Your task to perform on an android device: Search for a new lipgloss Image 0: 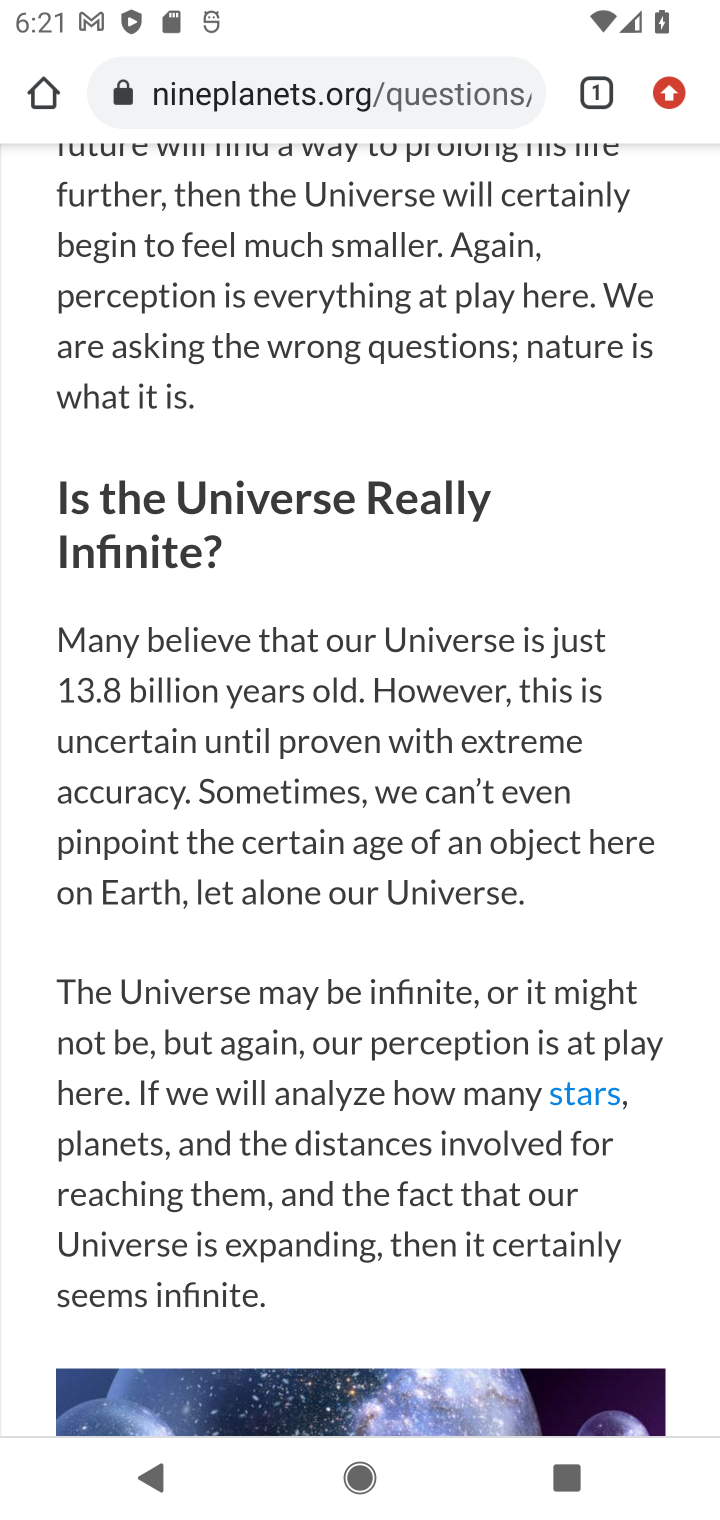
Step 0: click (392, 87)
Your task to perform on an android device: Search for a new lipgloss Image 1: 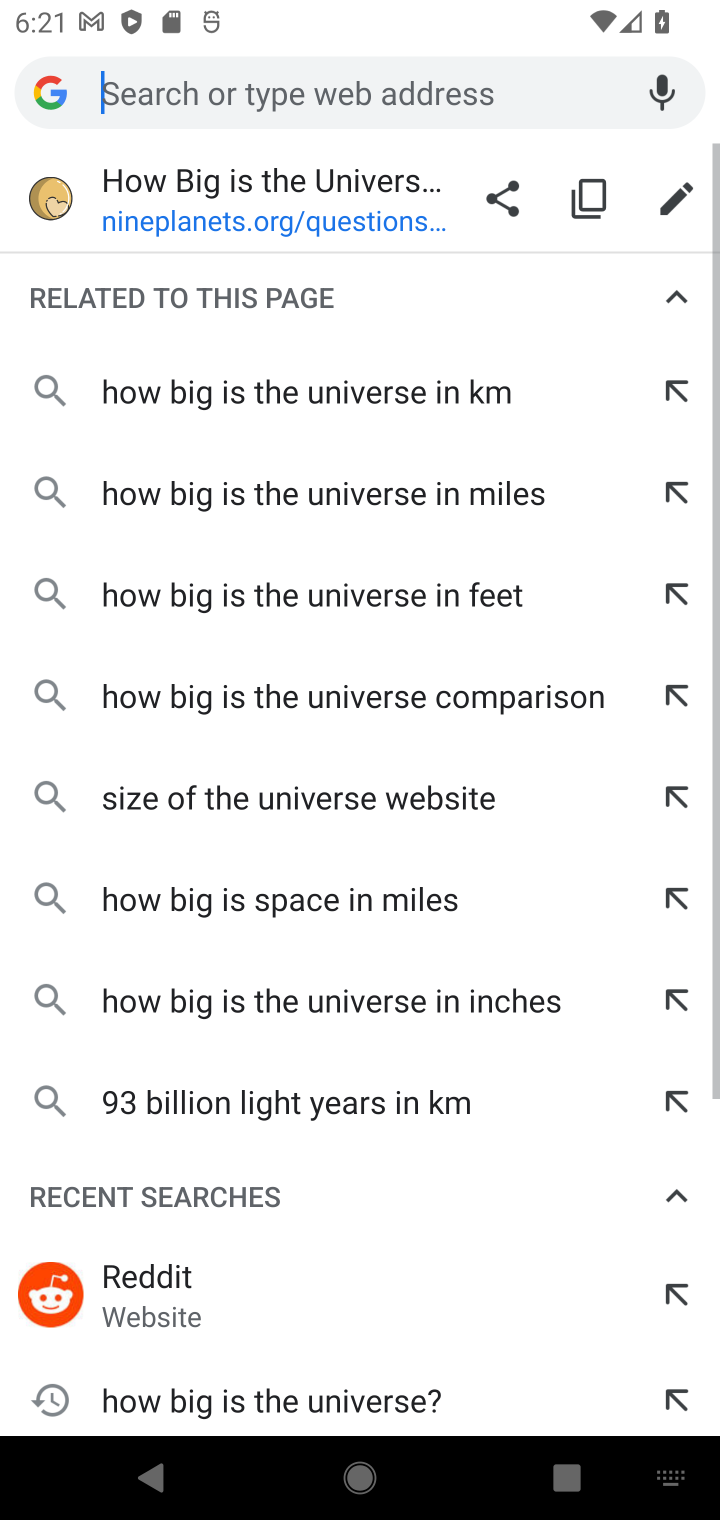
Step 1: type "a new lipgloss"
Your task to perform on an android device: Search for a new lipgloss Image 2: 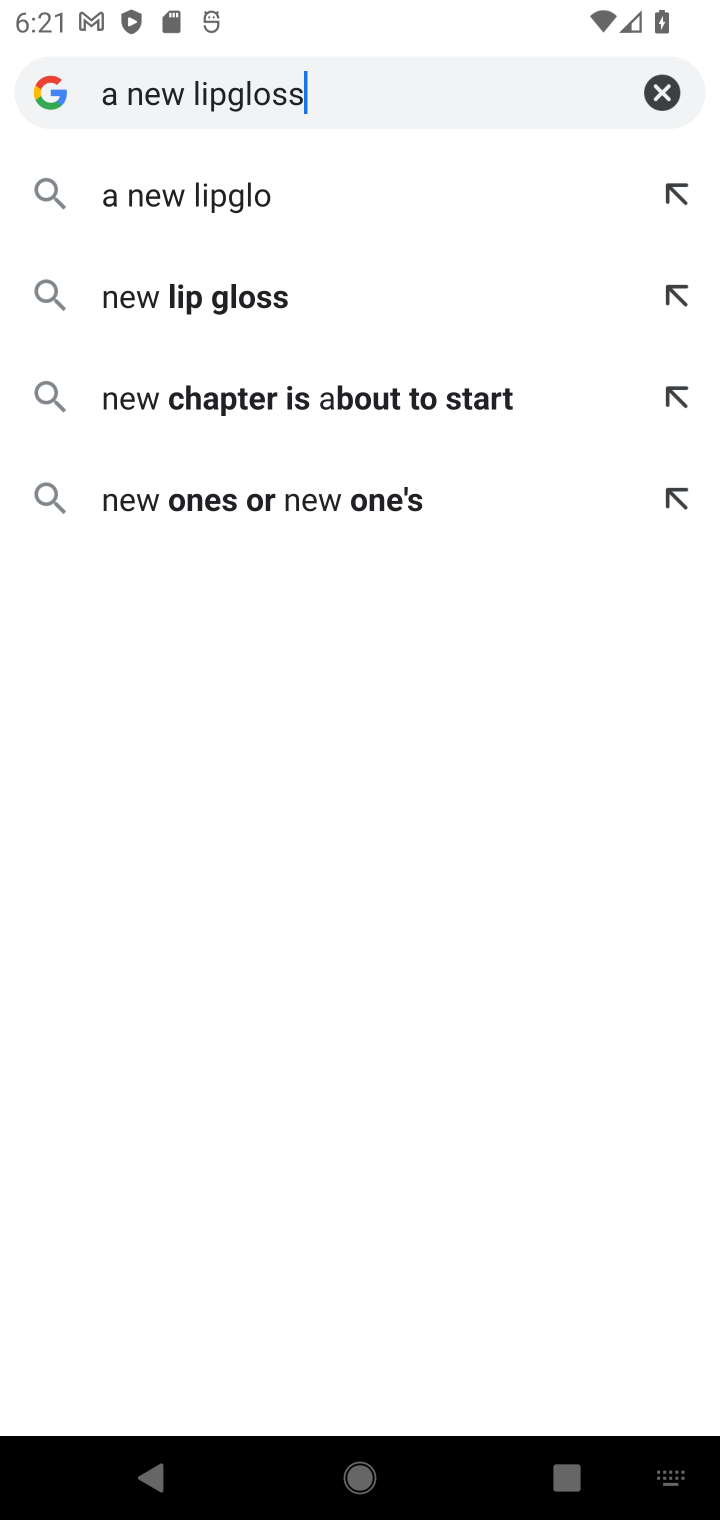
Step 2: type ""
Your task to perform on an android device: Search for a new lipgloss Image 3: 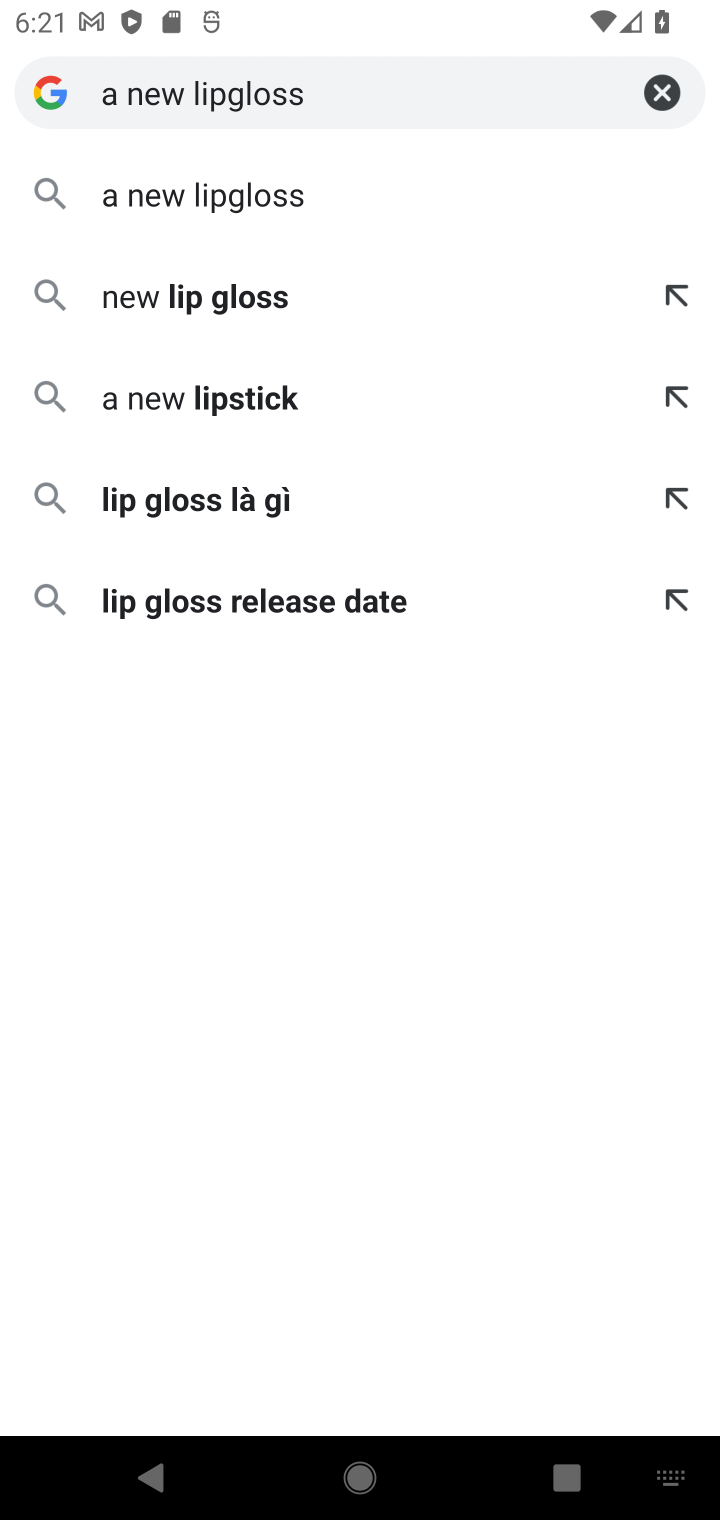
Step 3: click (147, 200)
Your task to perform on an android device: Search for a new lipgloss Image 4: 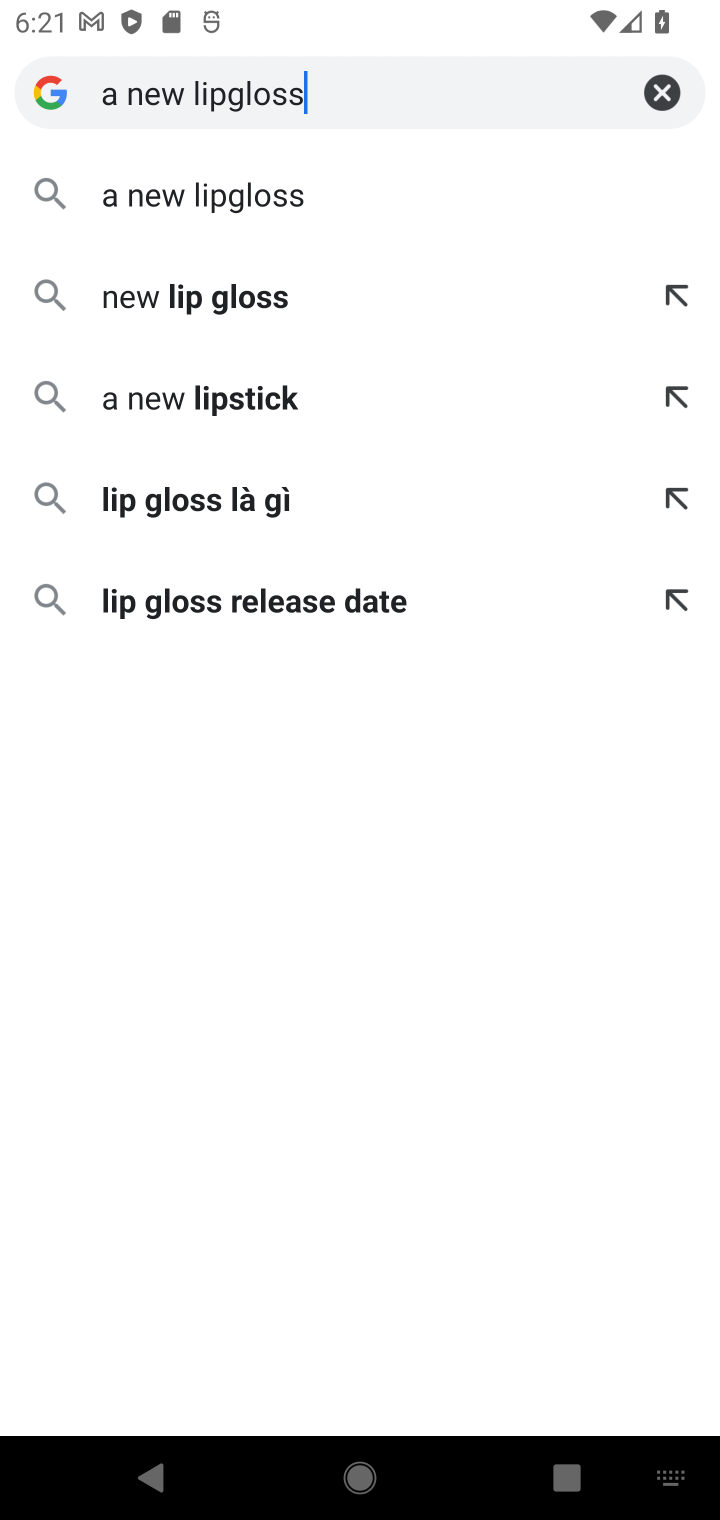
Step 4: press enter
Your task to perform on an android device: Search for a new lipgloss Image 5: 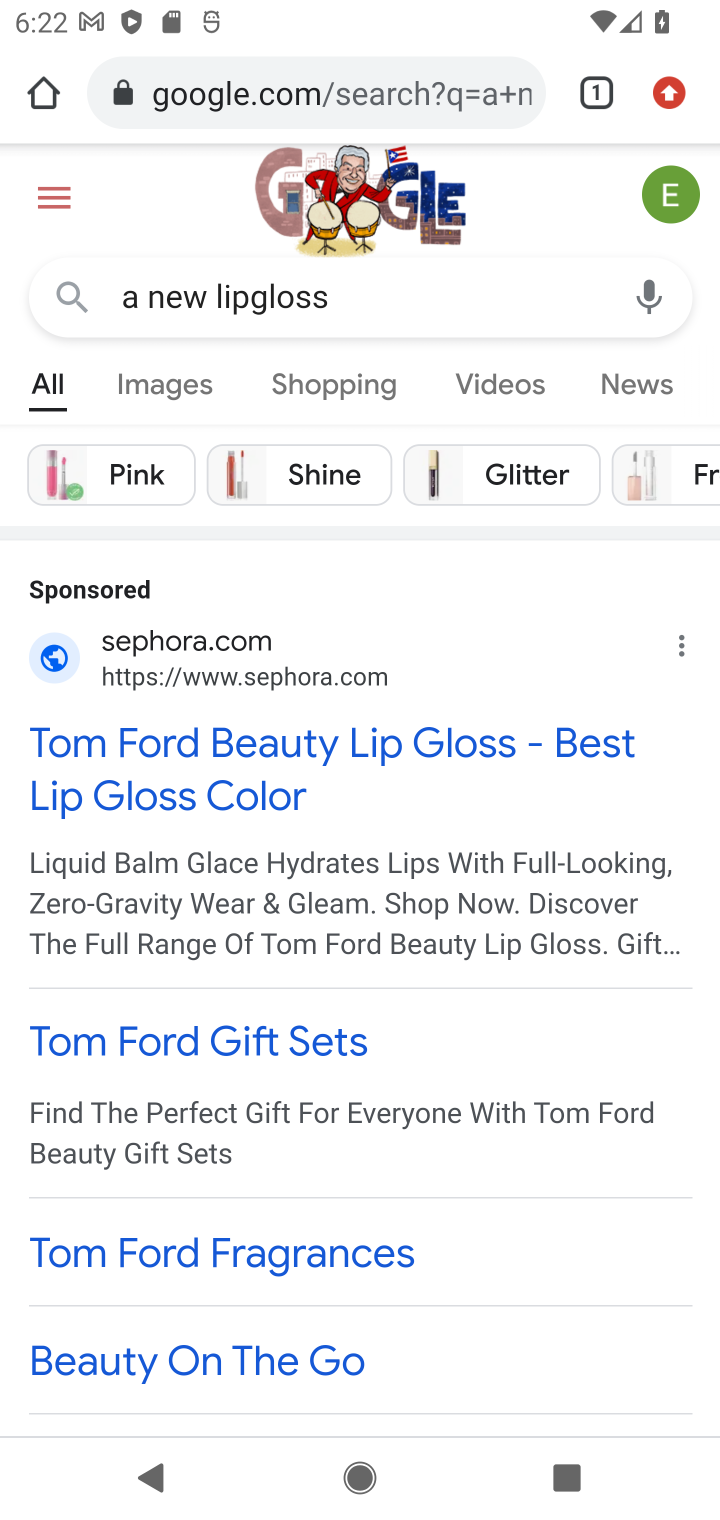
Step 5: click (452, 777)
Your task to perform on an android device: Search for a new lipgloss Image 6: 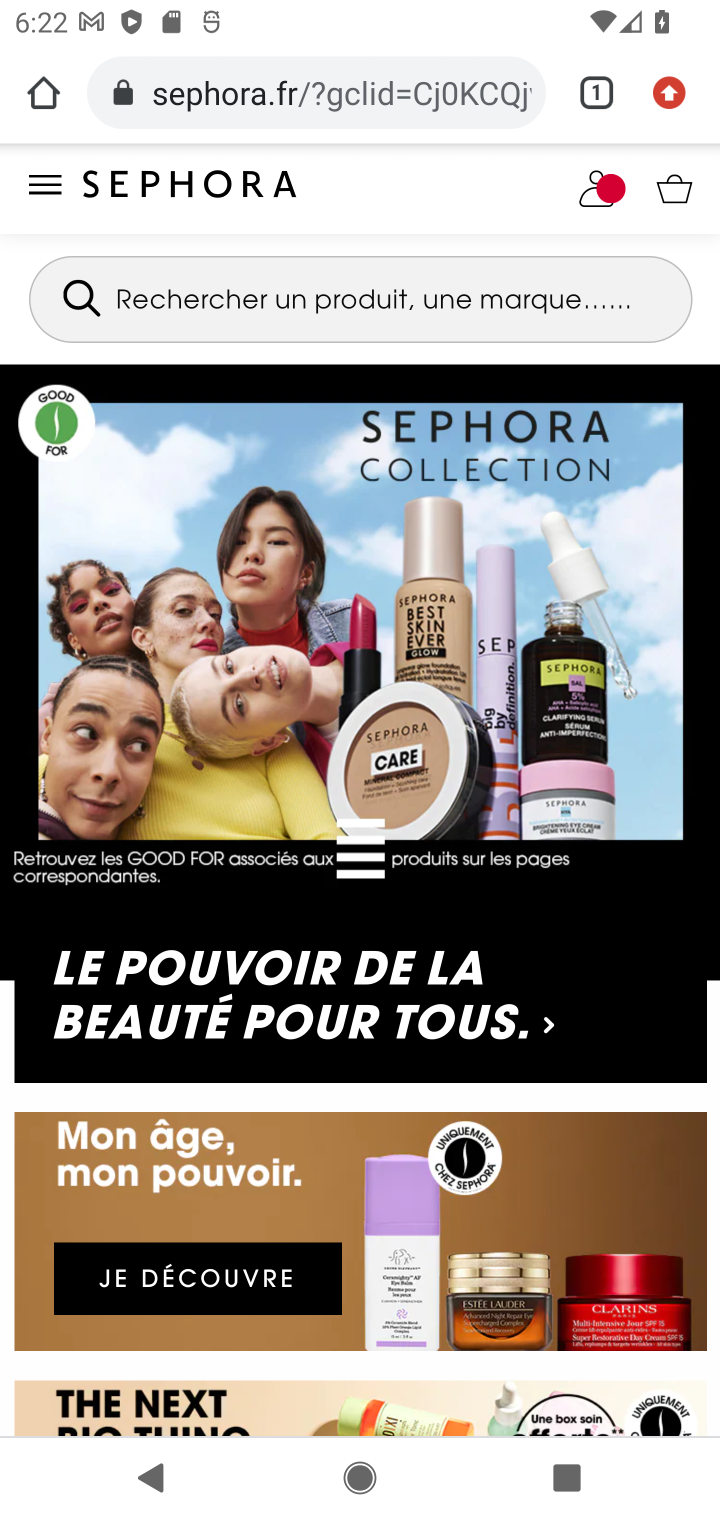
Step 6: drag from (528, 967) to (472, 276)
Your task to perform on an android device: Search for a new lipgloss Image 7: 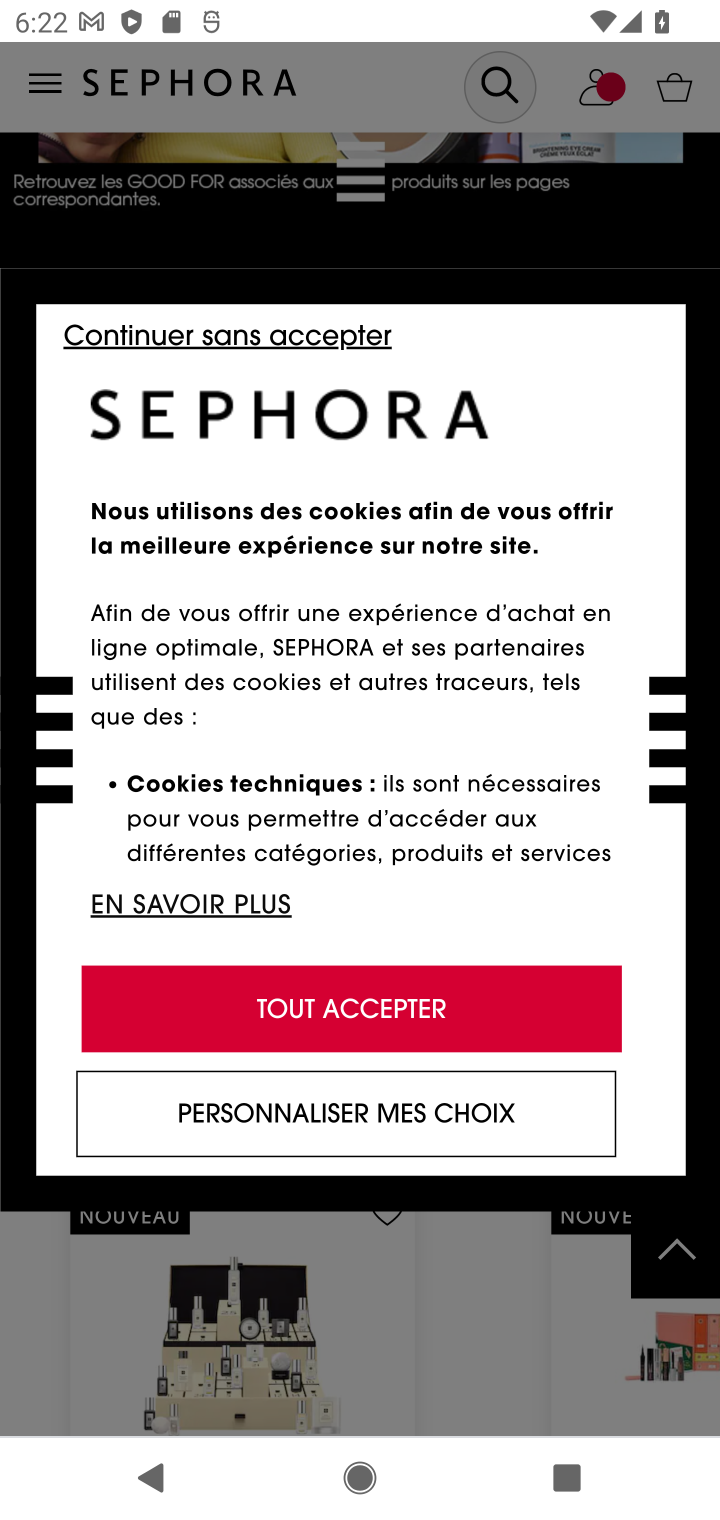
Step 7: click (379, 995)
Your task to perform on an android device: Search for a new lipgloss Image 8: 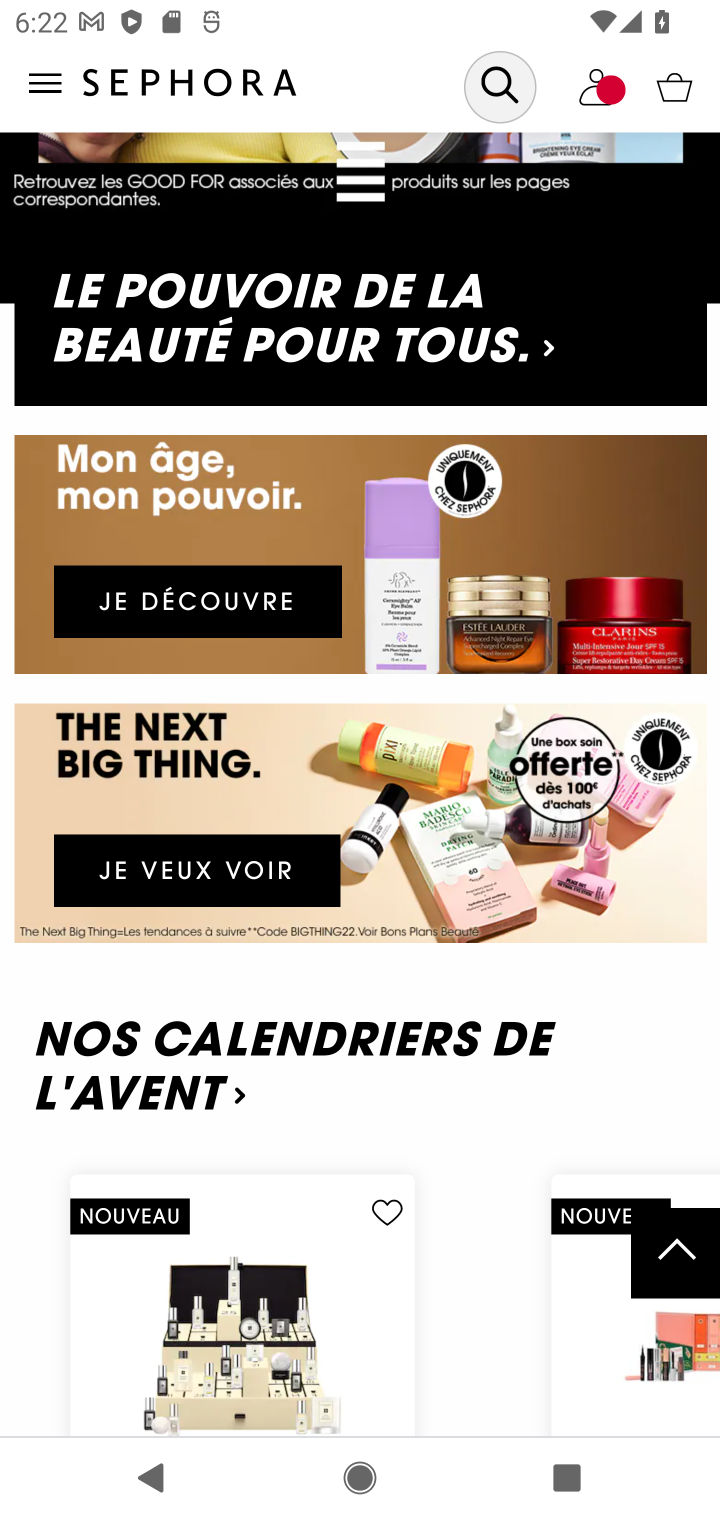
Step 8: drag from (449, 1150) to (421, 268)
Your task to perform on an android device: Search for a new lipgloss Image 9: 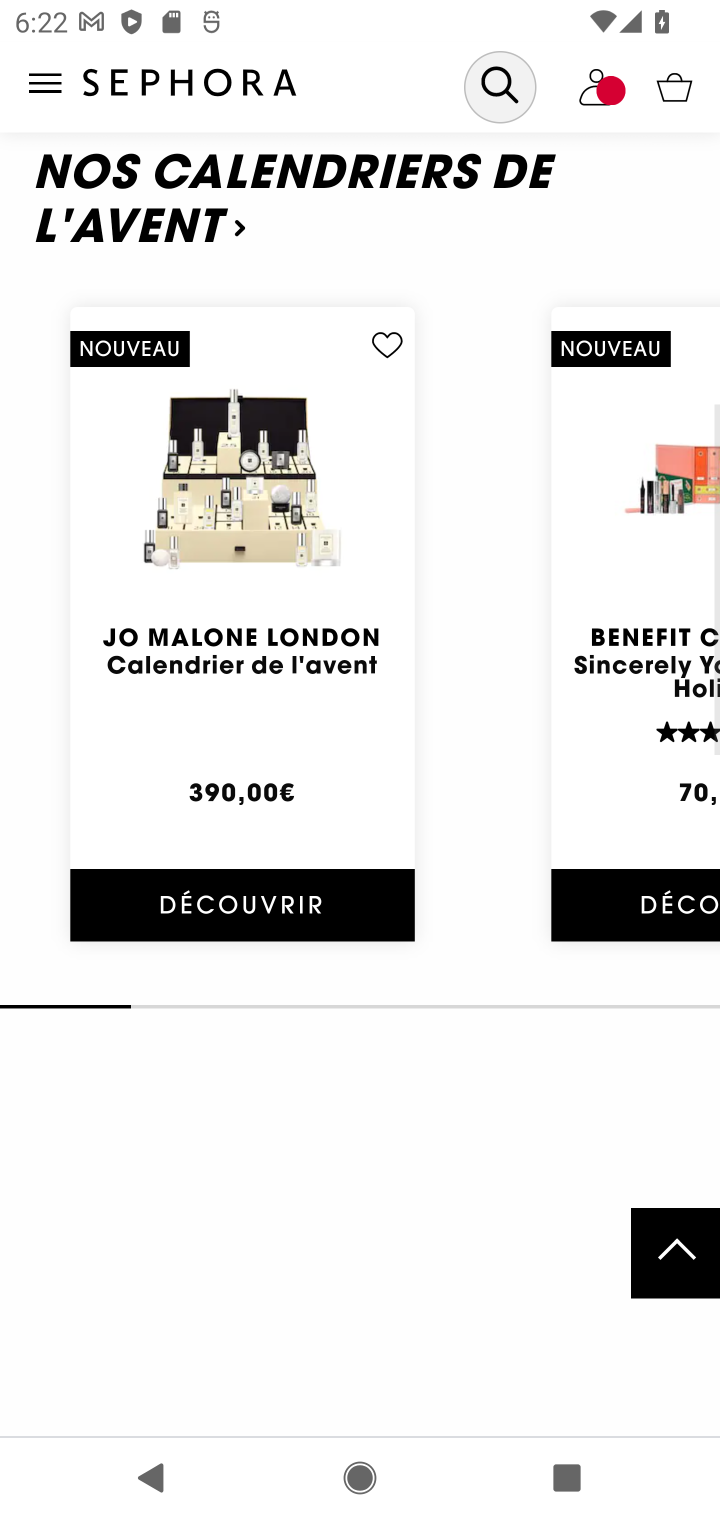
Step 9: drag from (343, 1135) to (213, 194)
Your task to perform on an android device: Search for a new lipgloss Image 10: 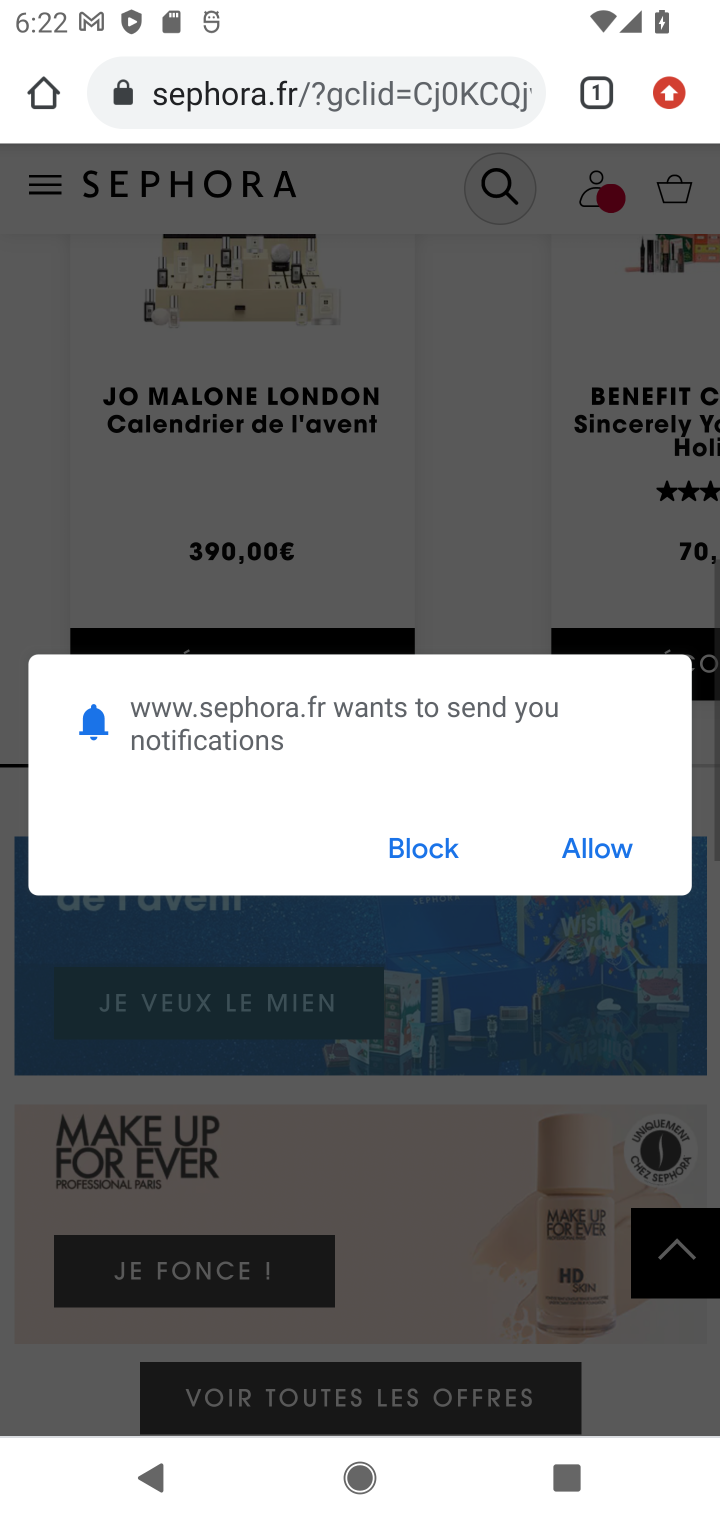
Step 10: click (391, 849)
Your task to perform on an android device: Search for a new lipgloss Image 11: 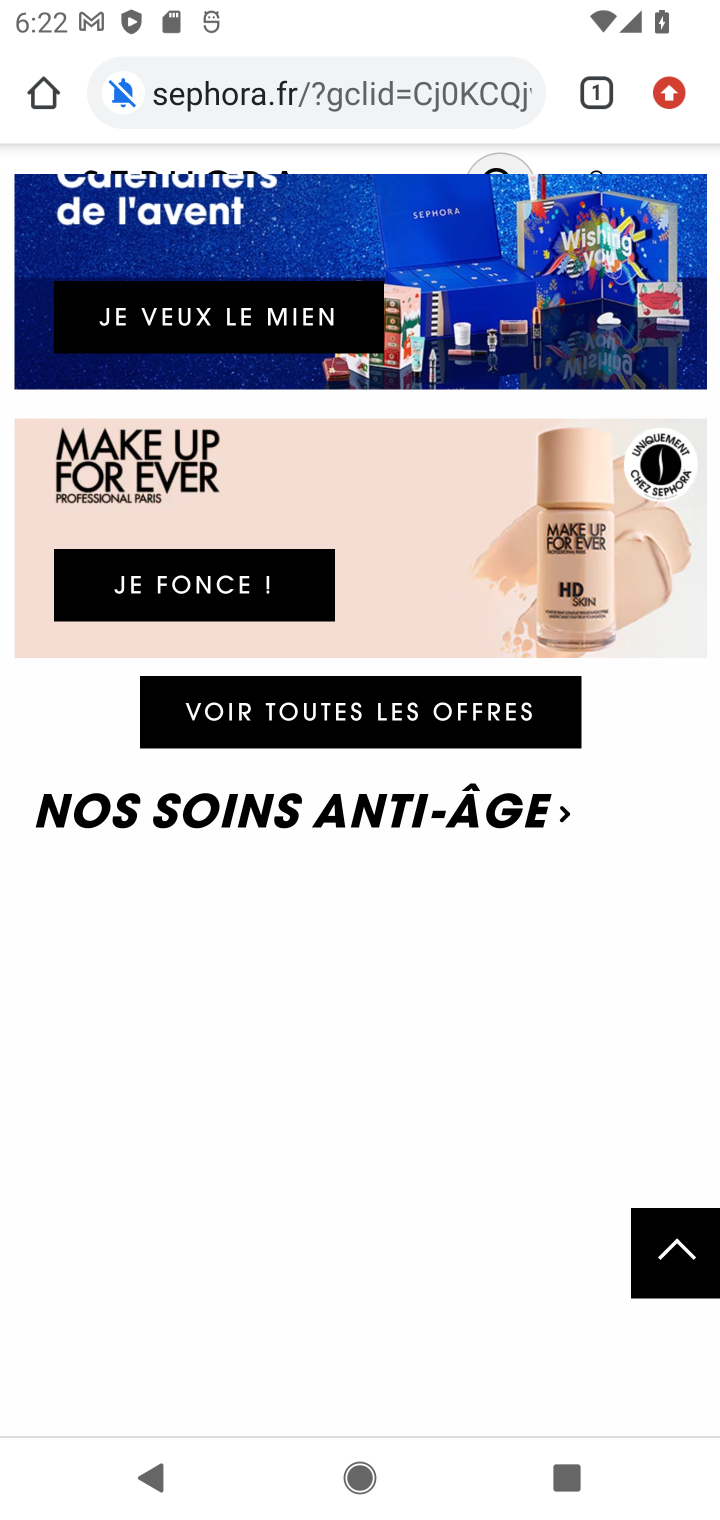
Step 11: drag from (534, 1129) to (545, 214)
Your task to perform on an android device: Search for a new lipgloss Image 12: 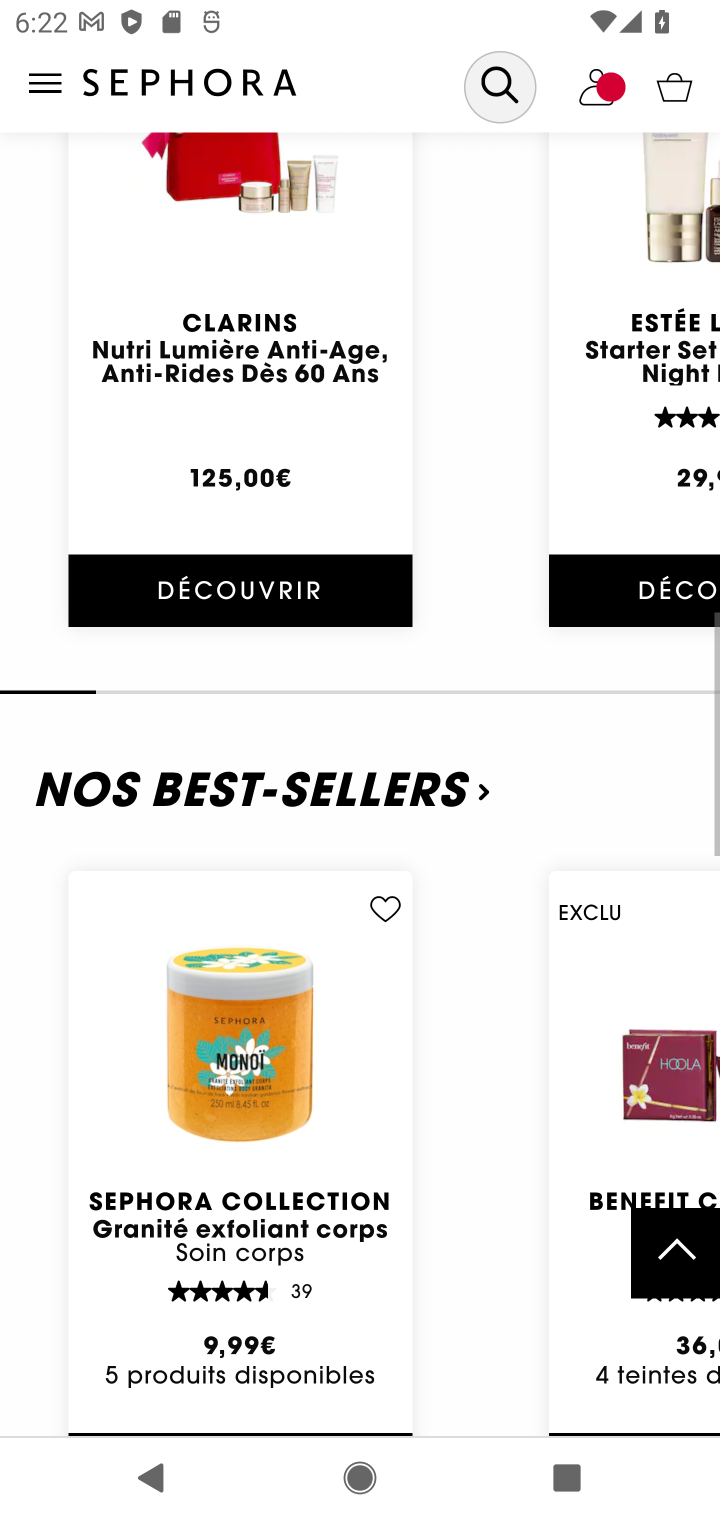
Step 12: drag from (514, 1106) to (555, 179)
Your task to perform on an android device: Search for a new lipgloss Image 13: 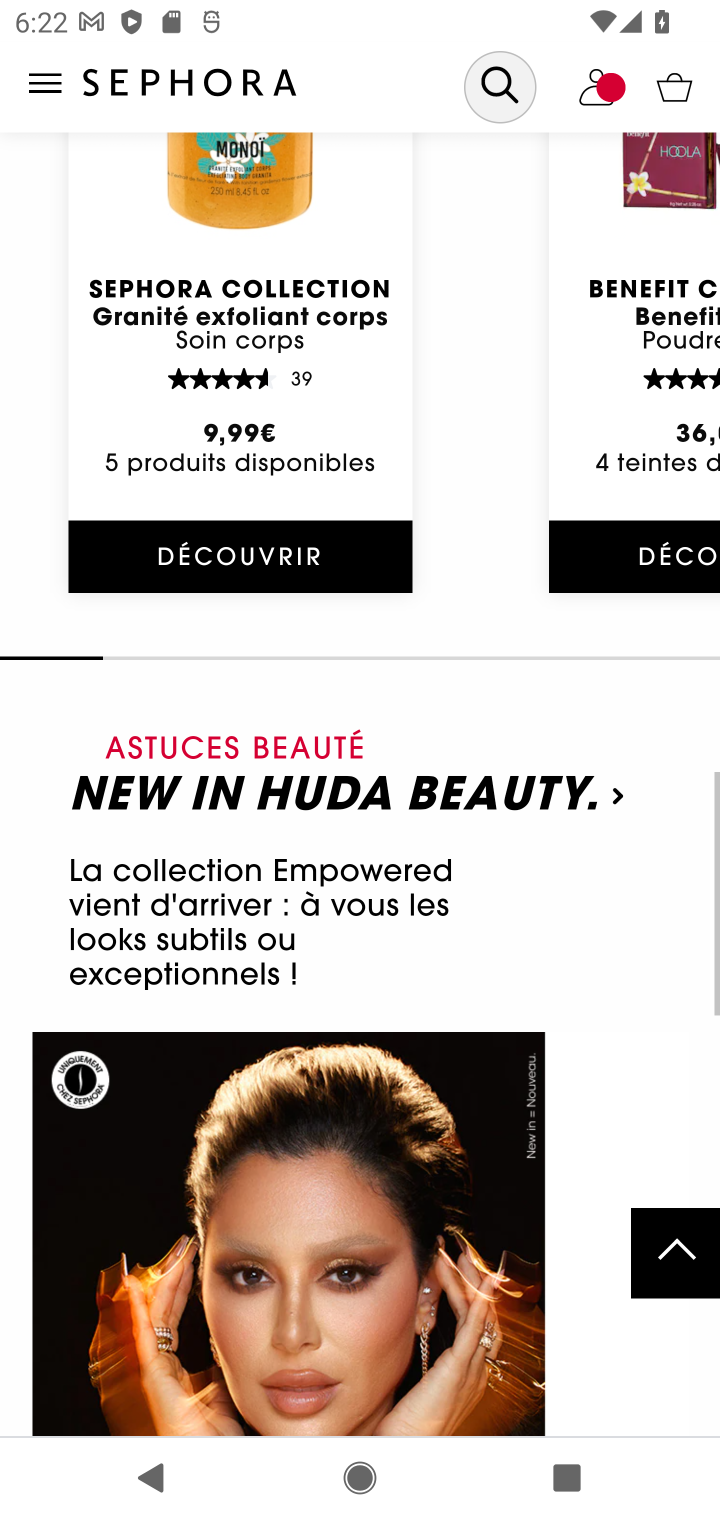
Step 13: drag from (588, 987) to (562, 132)
Your task to perform on an android device: Search for a new lipgloss Image 14: 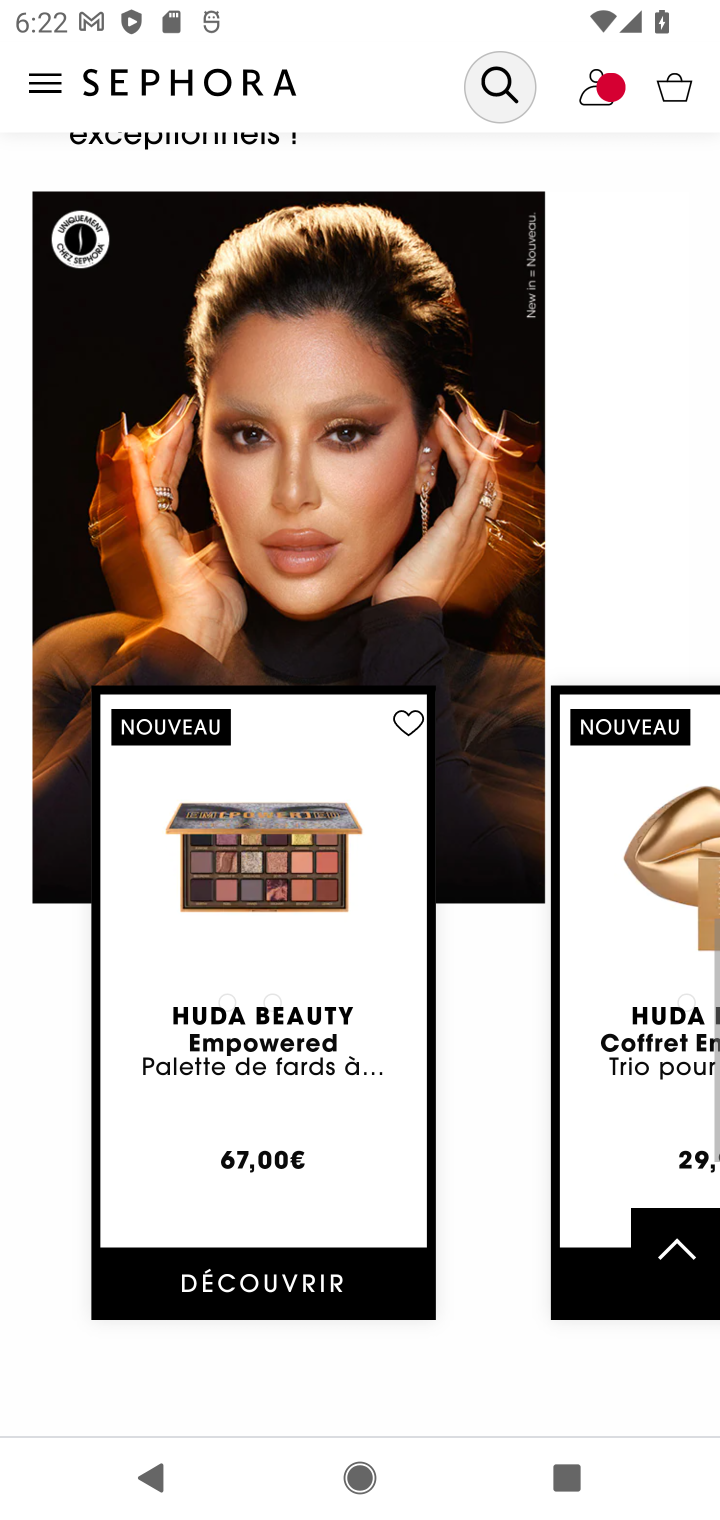
Step 14: drag from (496, 1226) to (518, 191)
Your task to perform on an android device: Search for a new lipgloss Image 15: 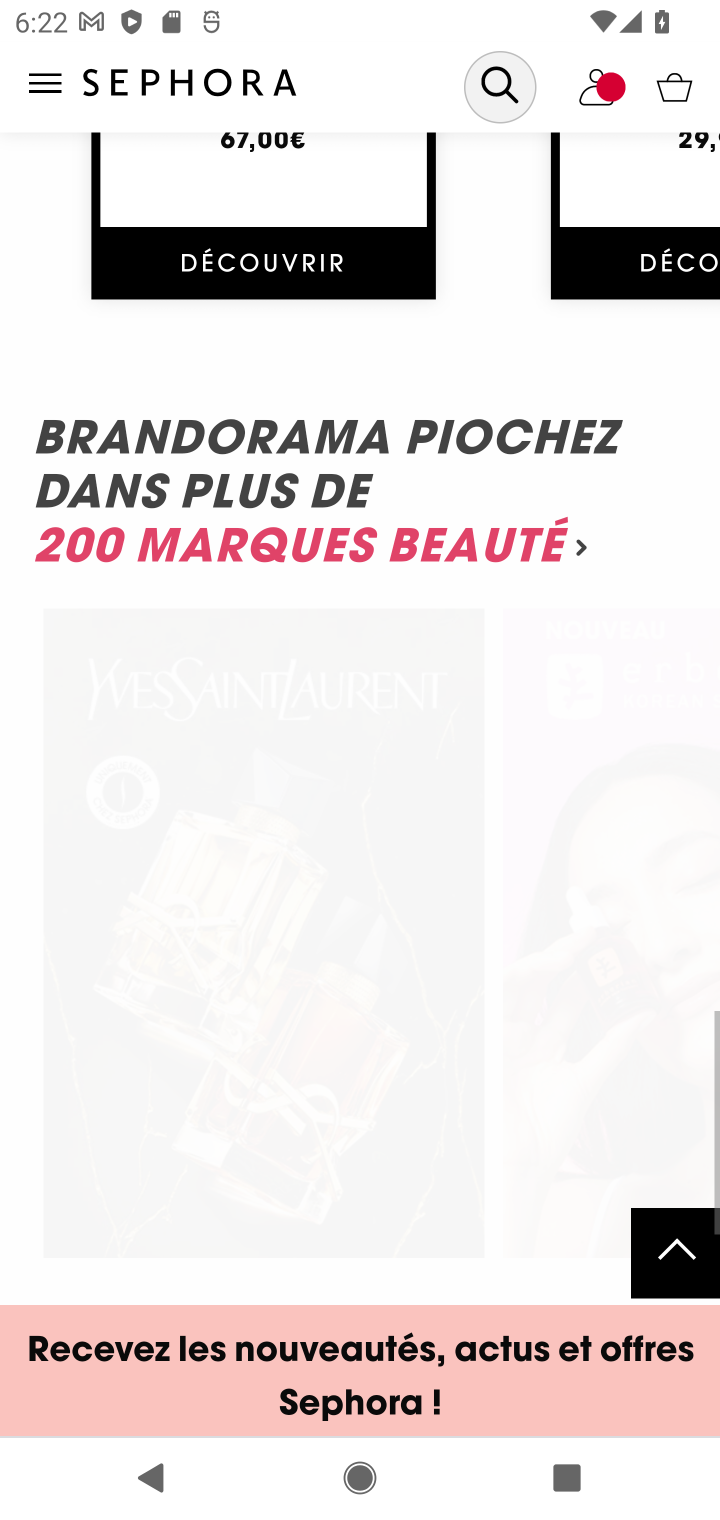
Step 15: drag from (366, 809) to (351, 588)
Your task to perform on an android device: Search for a new lipgloss Image 16: 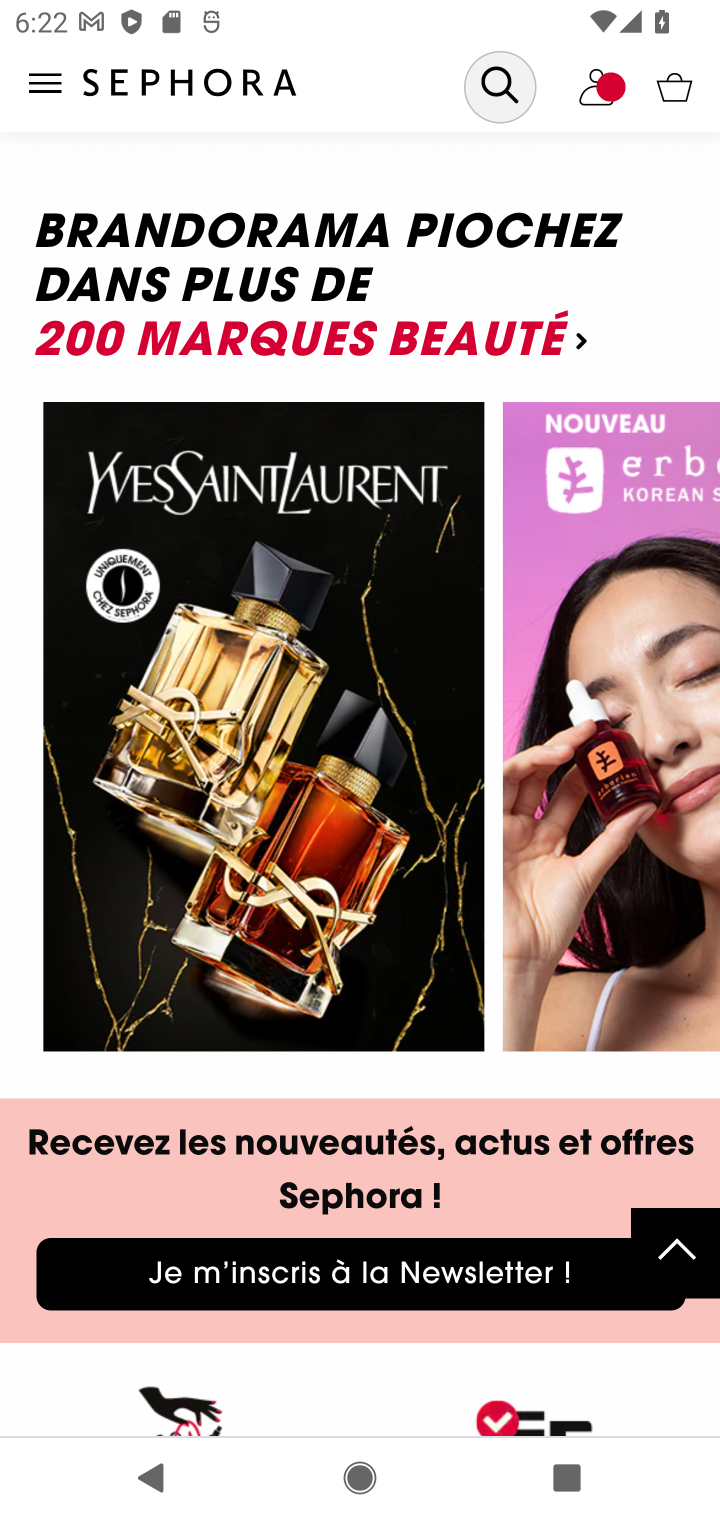
Step 16: drag from (236, 401) to (364, 268)
Your task to perform on an android device: Search for a new lipgloss Image 17: 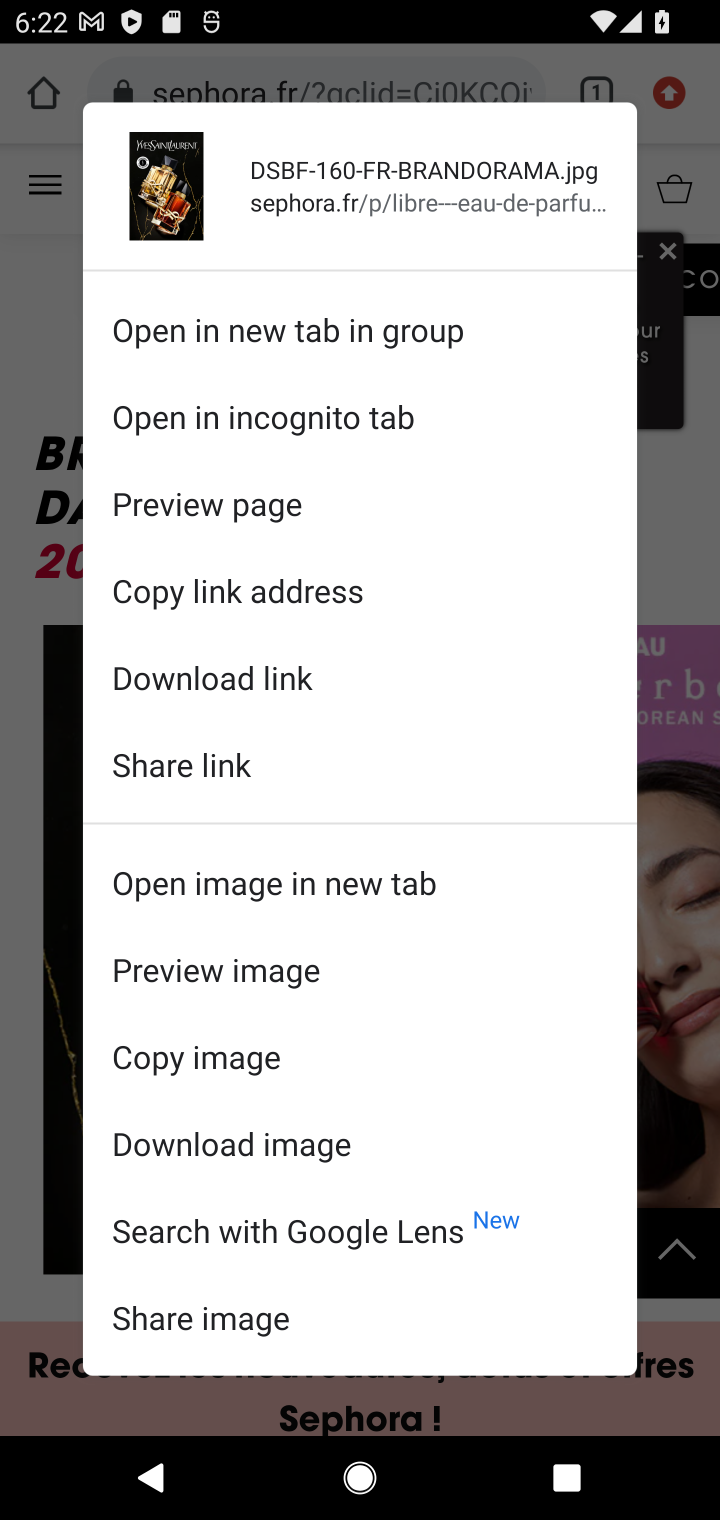
Step 17: drag from (431, 516) to (462, 306)
Your task to perform on an android device: Search for a new lipgloss Image 18: 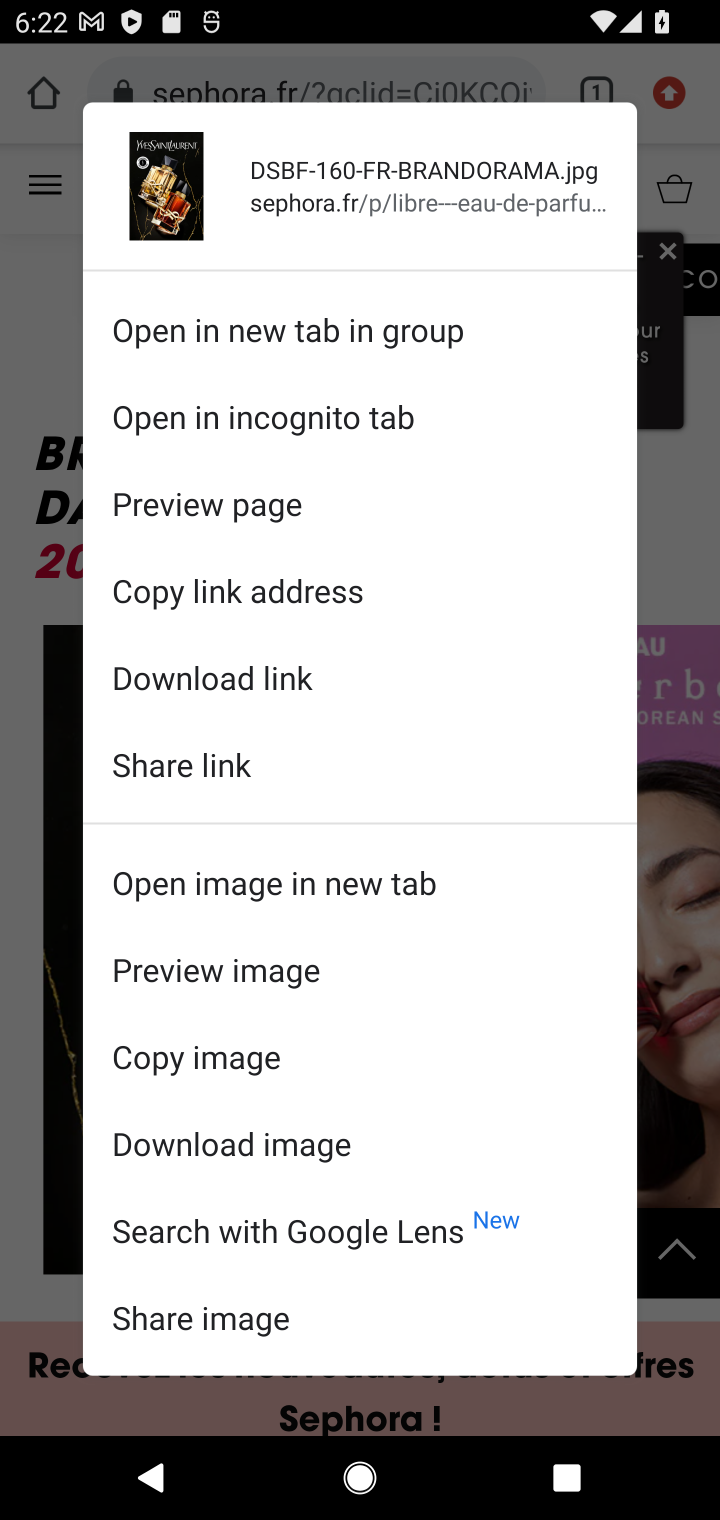
Step 18: drag from (423, 619) to (420, 346)
Your task to perform on an android device: Search for a new lipgloss Image 19: 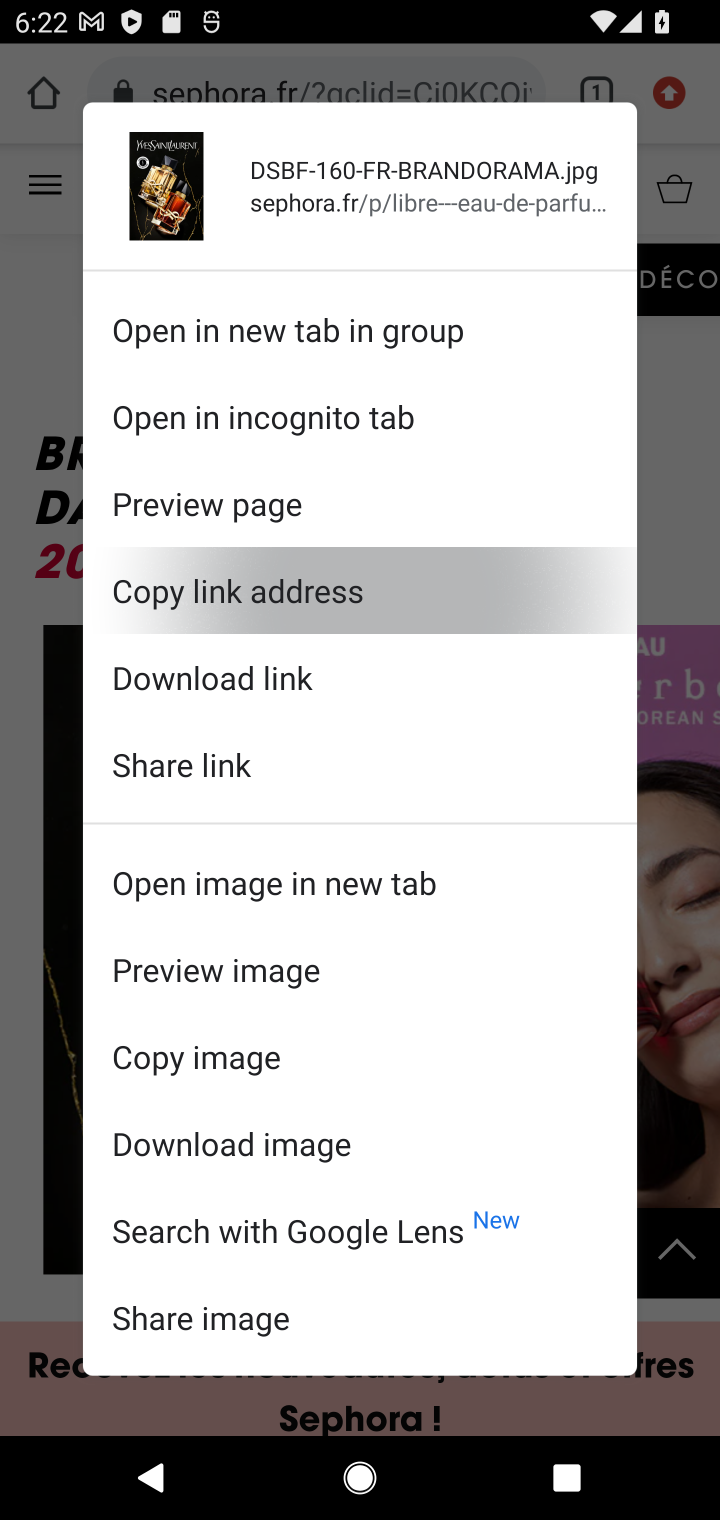
Step 19: drag from (364, 640) to (368, 332)
Your task to perform on an android device: Search for a new lipgloss Image 20: 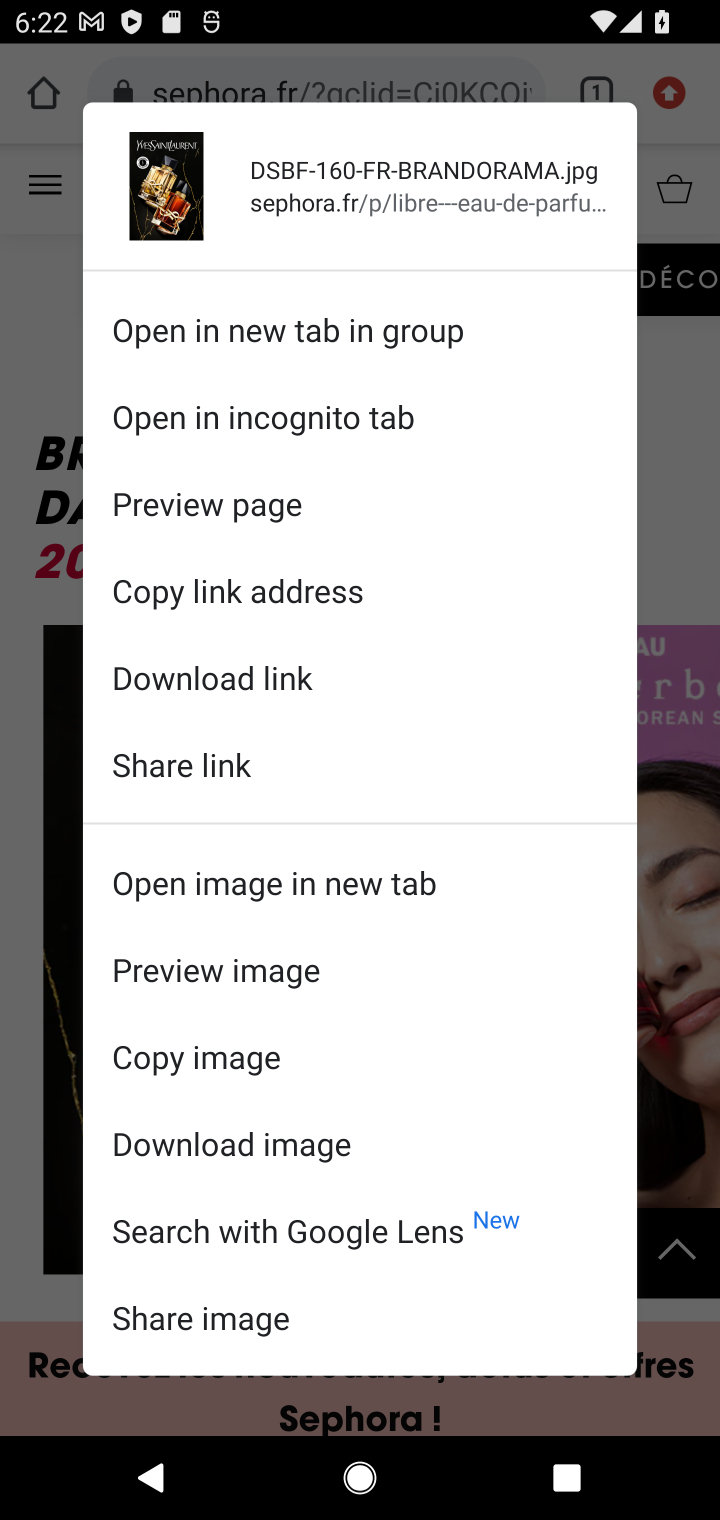
Step 20: click (657, 486)
Your task to perform on an android device: Search for a new lipgloss Image 21: 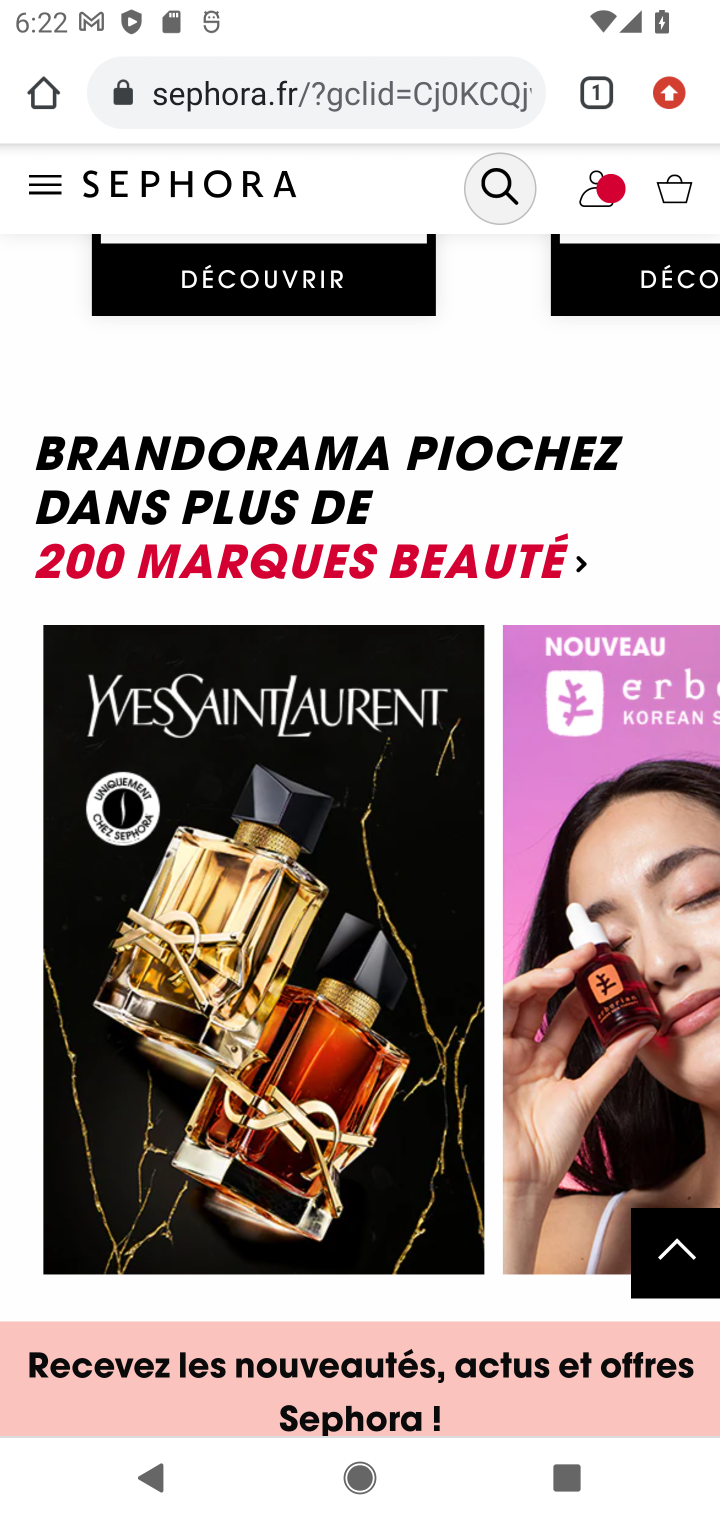
Step 21: press back button
Your task to perform on an android device: Search for a new lipgloss Image 22: 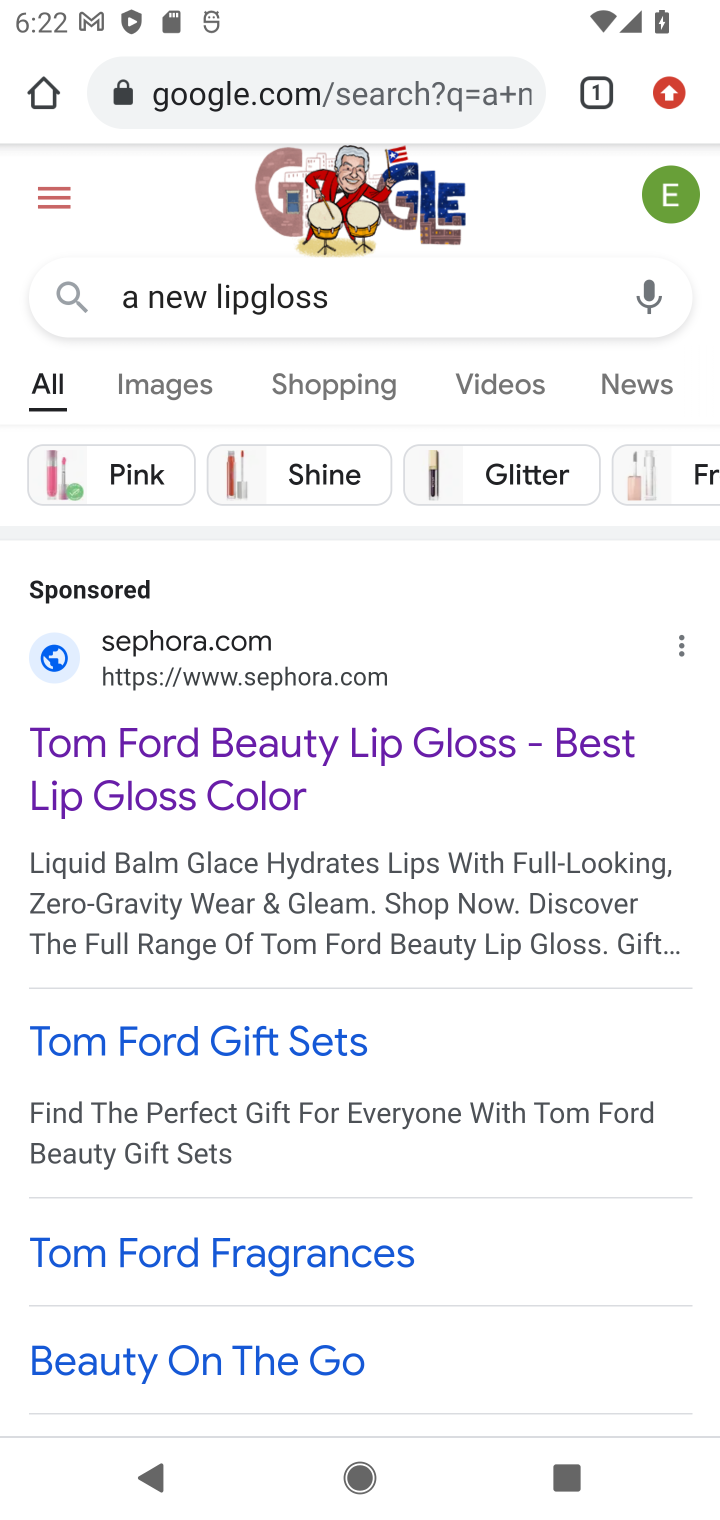
Step 22: drag from (513, 1269) to (541, 509)
Your task to perform on an android device: Search for a new lipgloss Image 23: 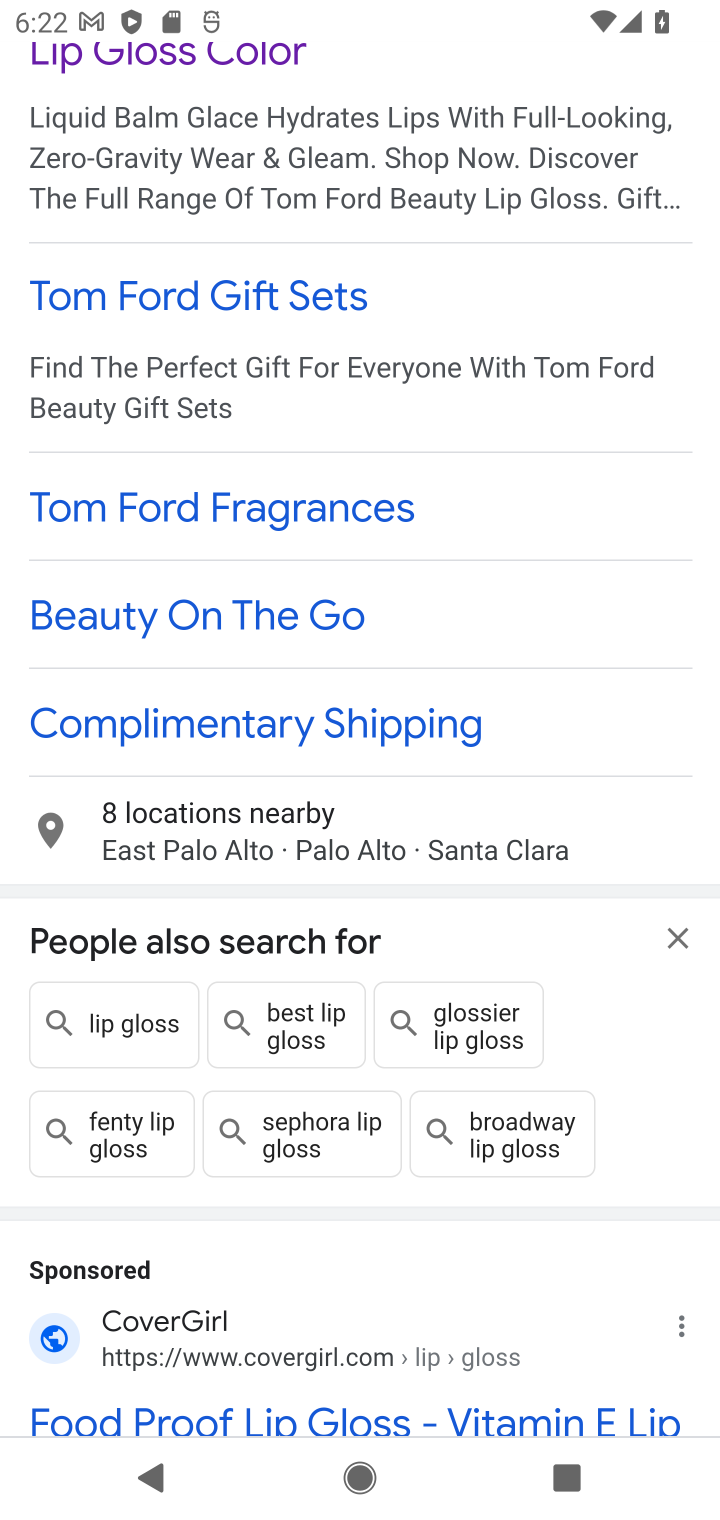
Step 23: click (417, 1417)
Your task to perform on an android device: Search for a new lipgloss Image 24: 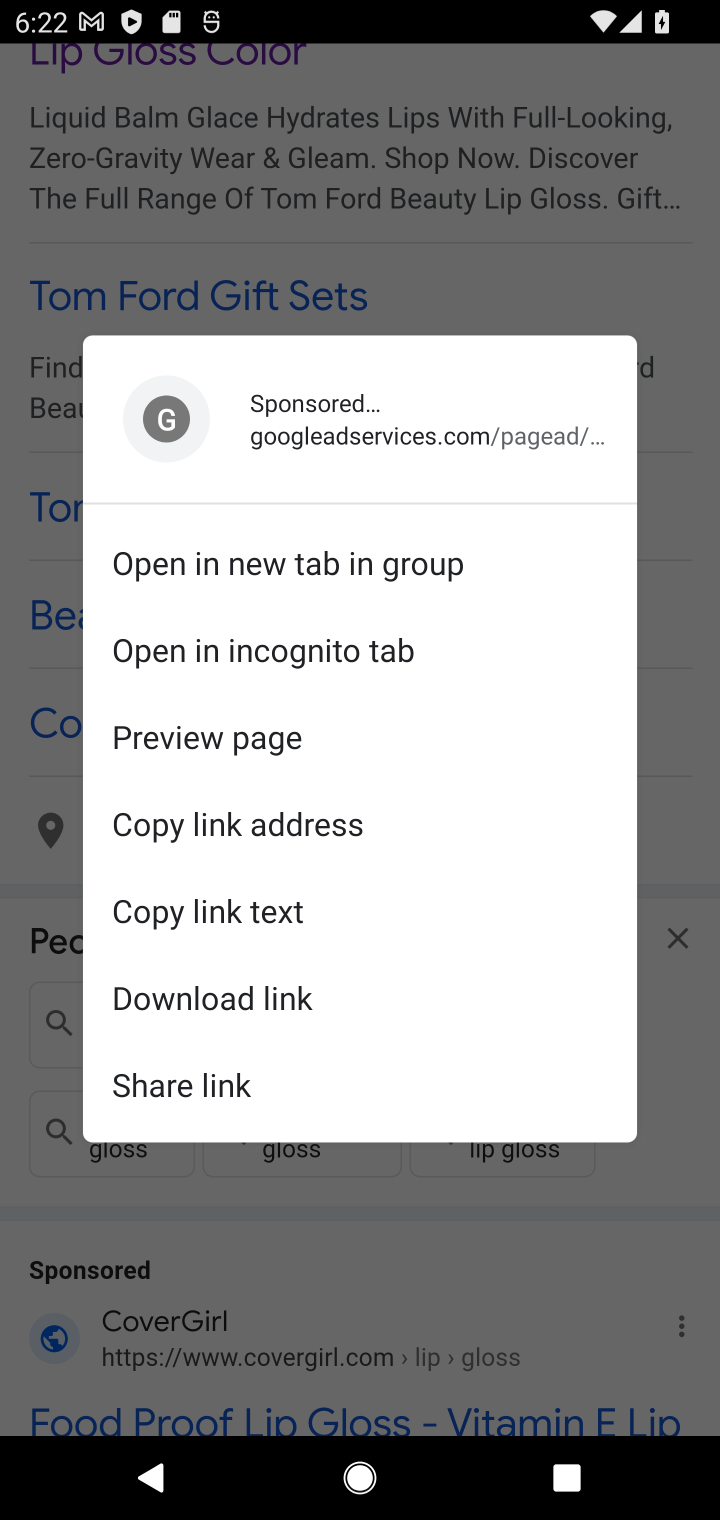
Step 24: click (452, 1340)
Your task to perform on an android device: Search for a new lipgloss Image 25: 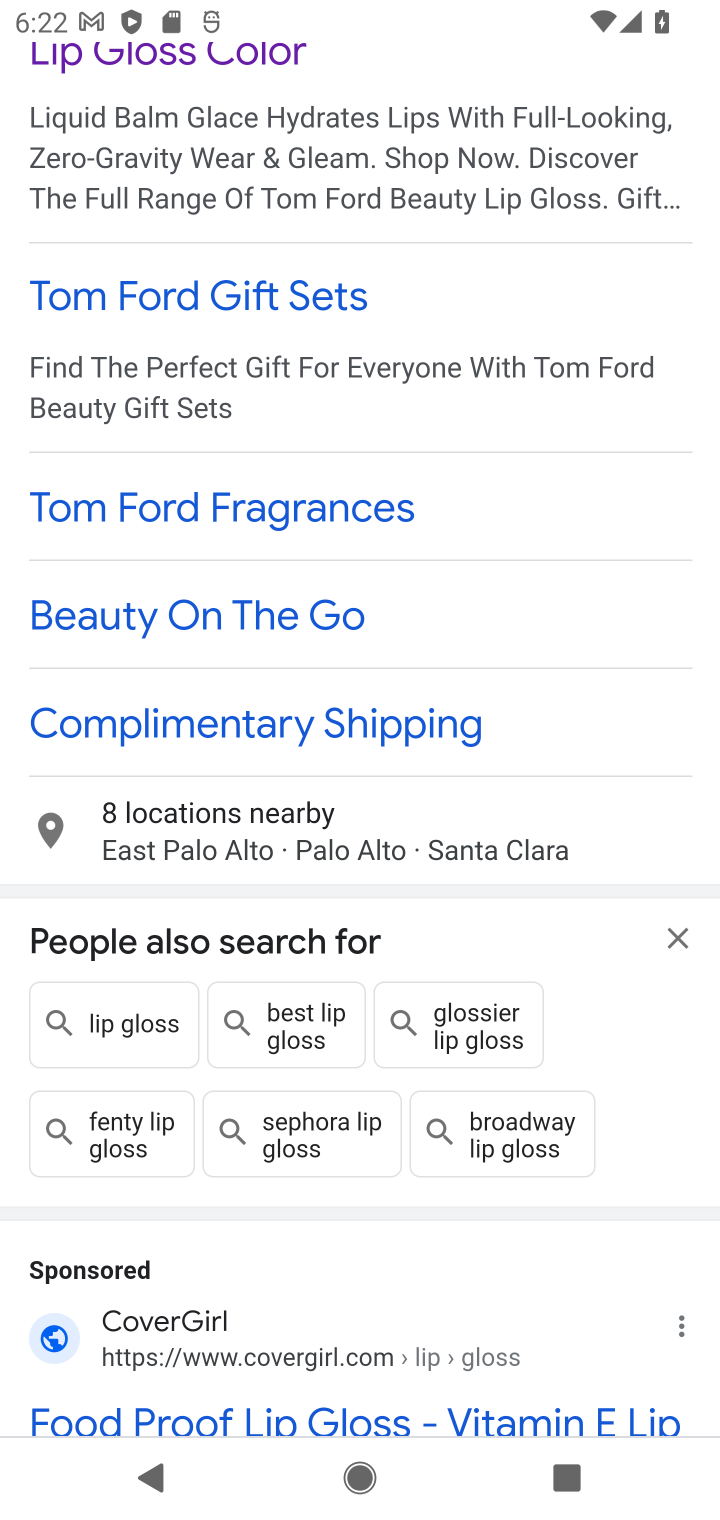
Step 25: drag from (454, 1296) to (488, 595)
Your task to perform on an android device: Search for a new lipgloss Image 26: 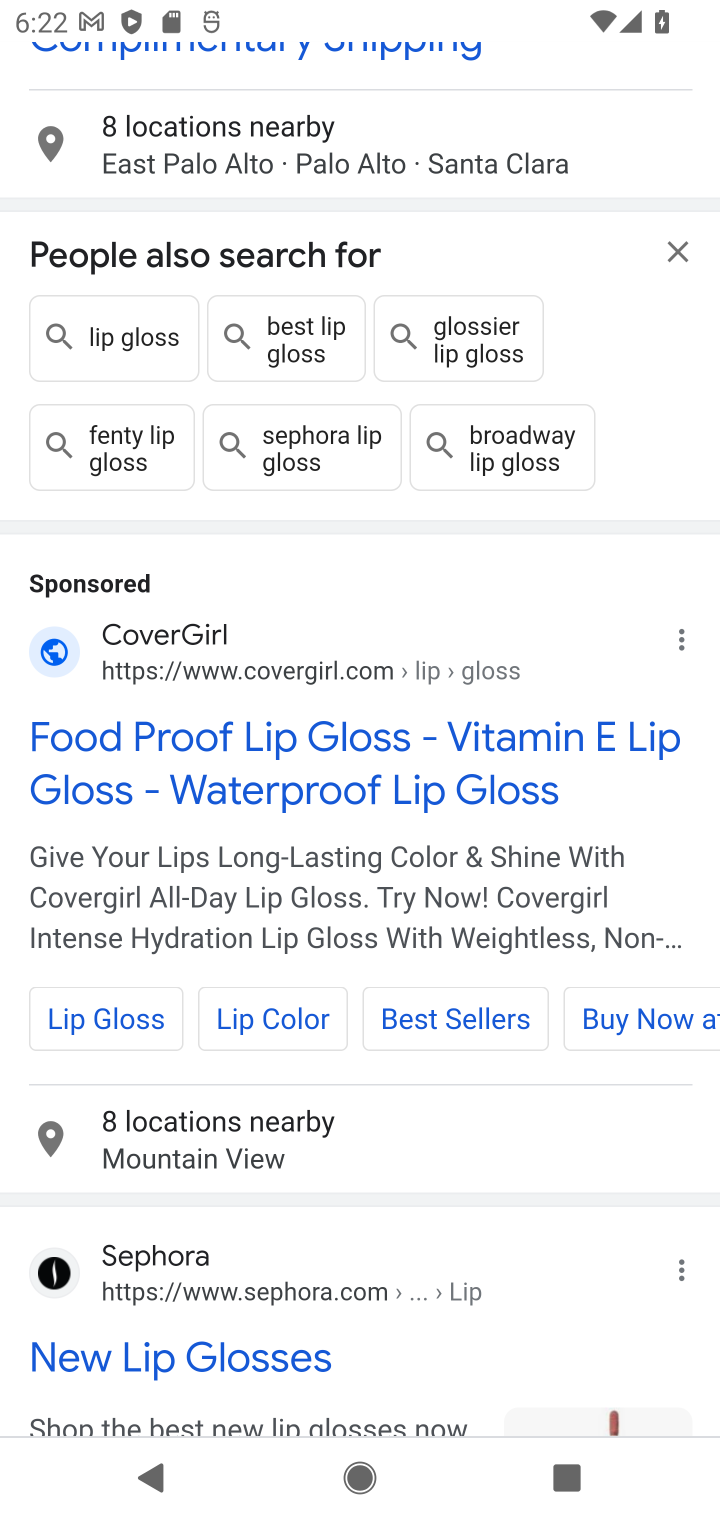
Step 26: click (367, 740)
Your task to perform on an android device: Search for a new lipgloss Image 27: 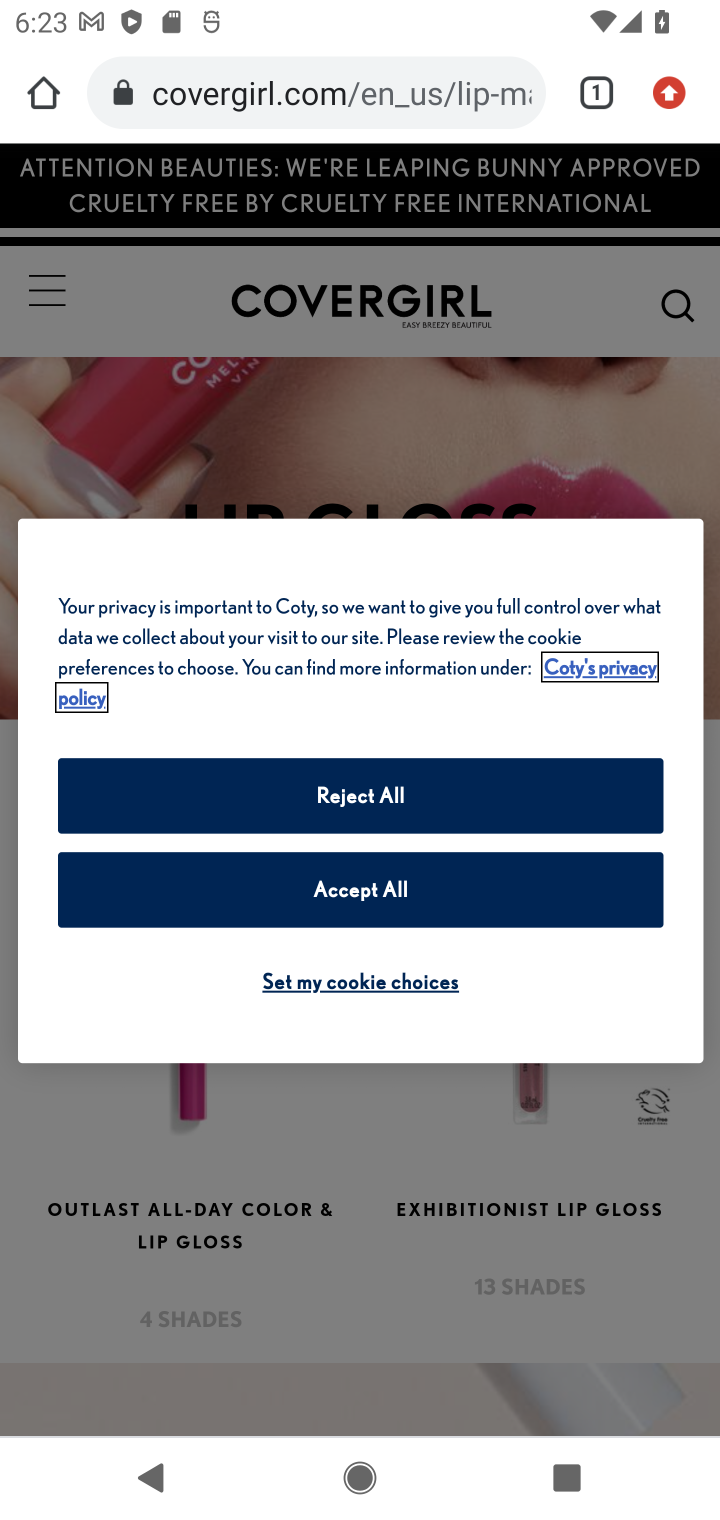
Step 27: click (316, 815)
Your task to perform on an android device: Search for a new lipgloss Image 28: 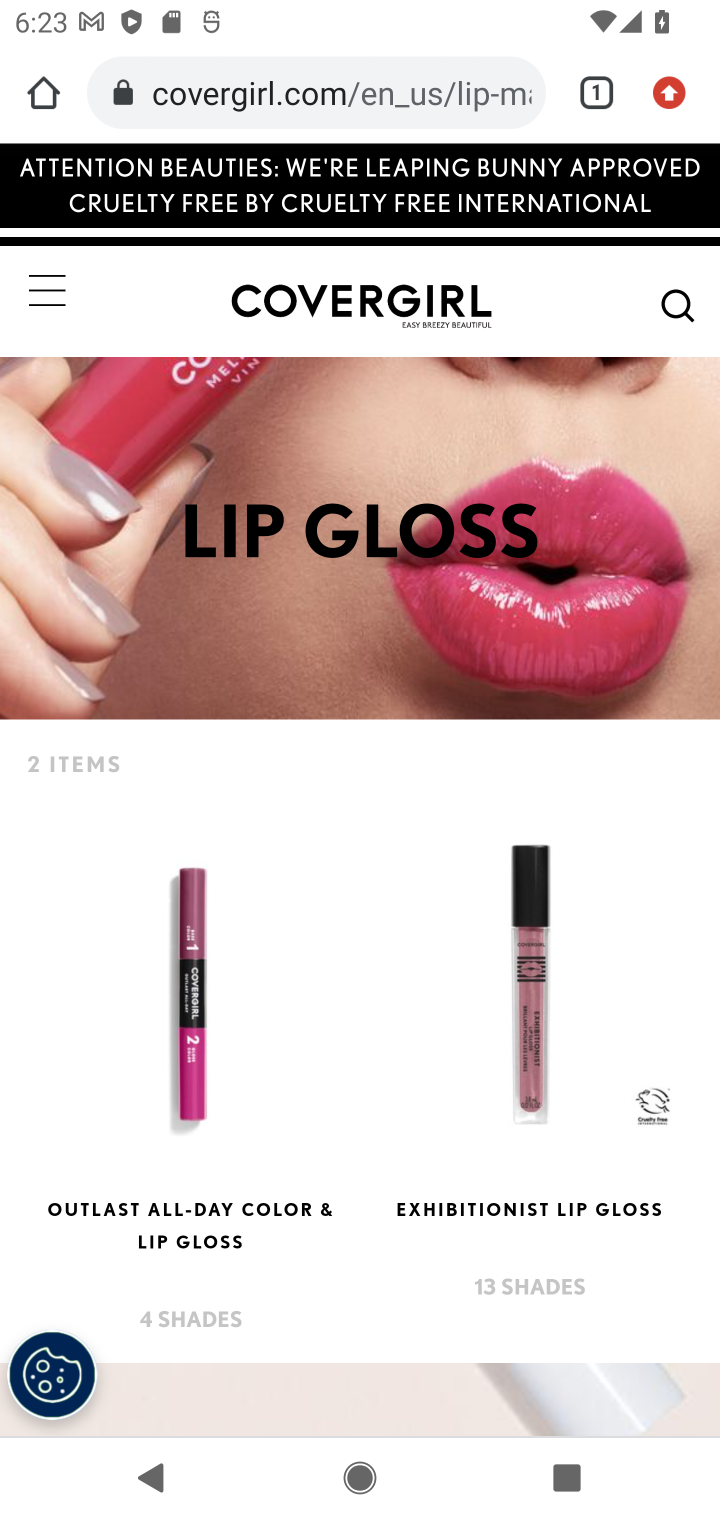
Step 28: drag from (430, 775) to (400, 355)
Your task to perform on an android device: Search for a new lipgloss Image 29: 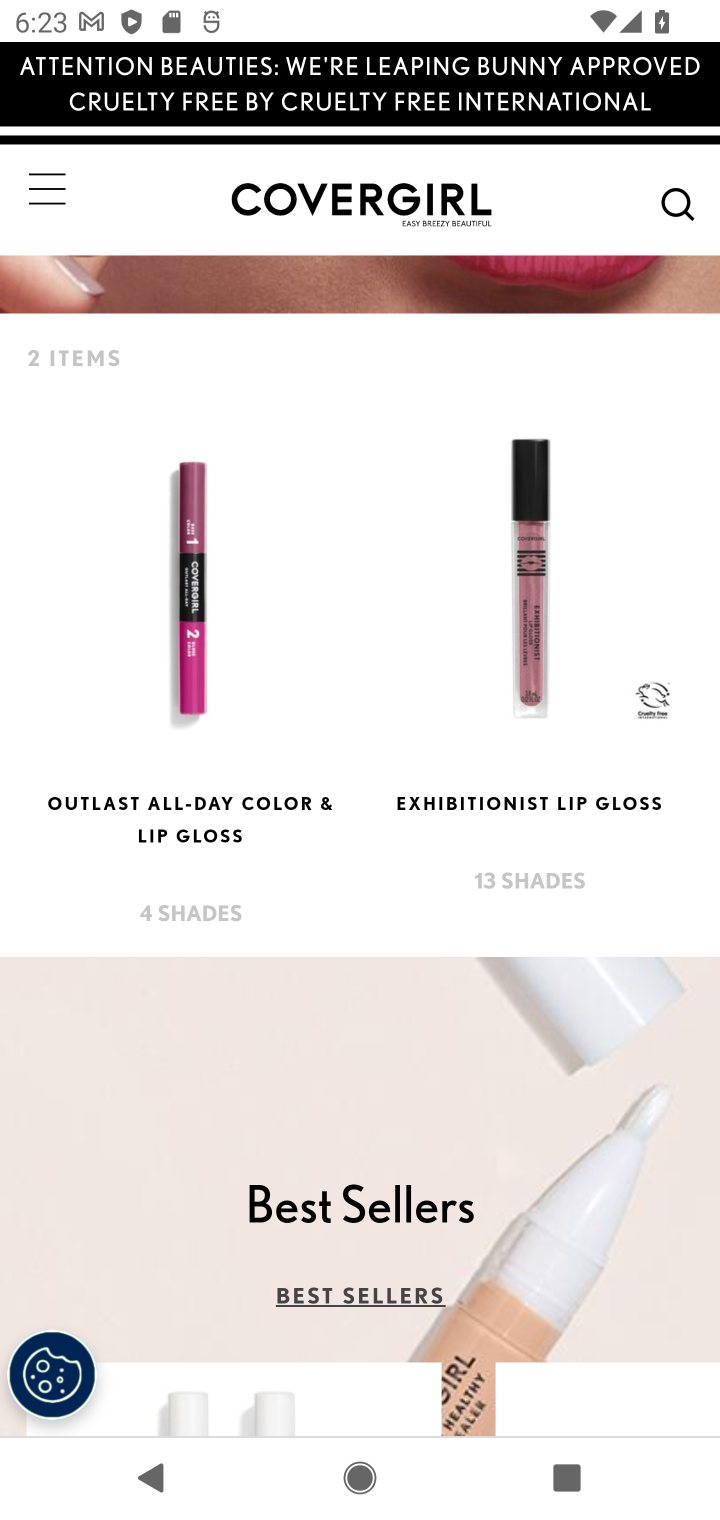
Step 29: drag from (456, 1166) to (350, 217)
Your task to perform on an android device: Search for a new lipgloss Image 30: 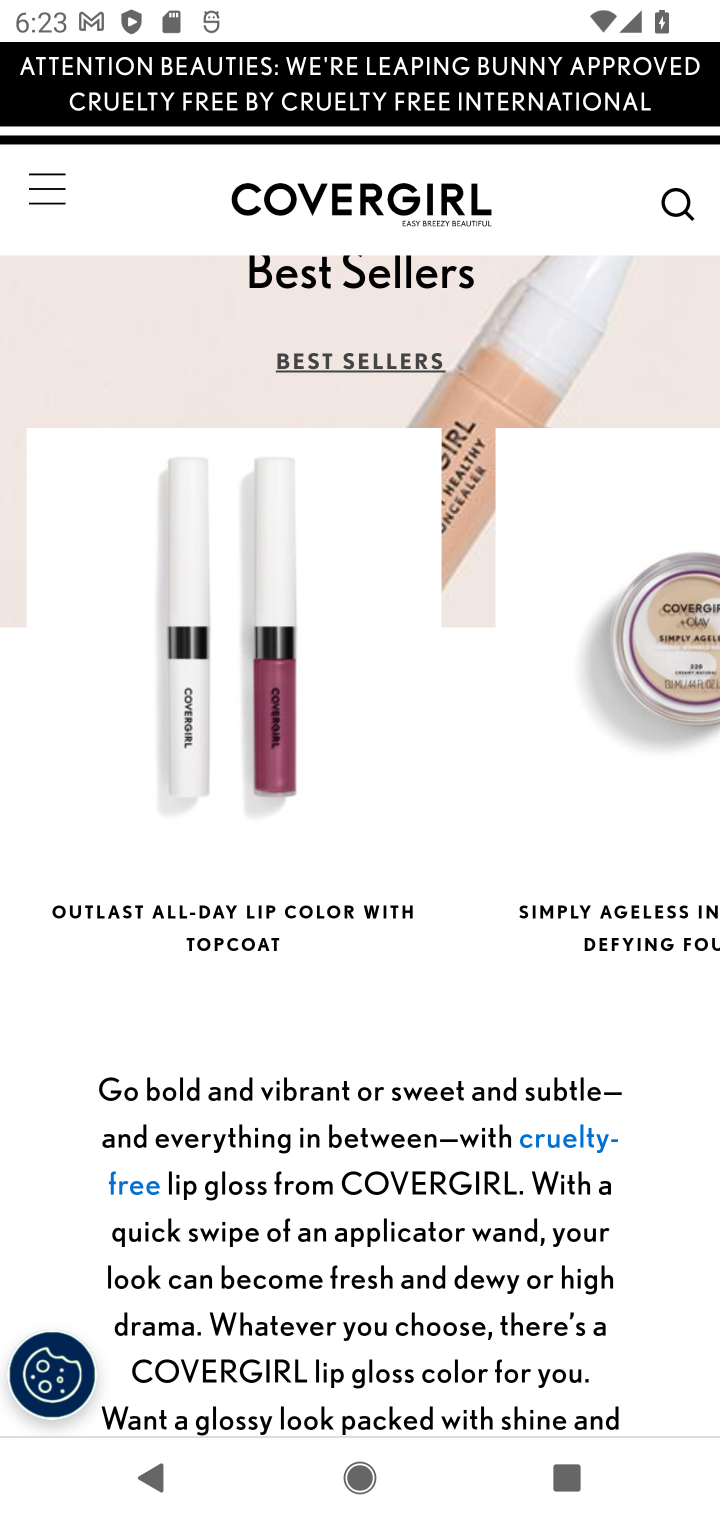
Step 30: drag from (427, 1109) to (406, 398)
Your task to perform on an android device: Search for a new lipgloss Image 31: 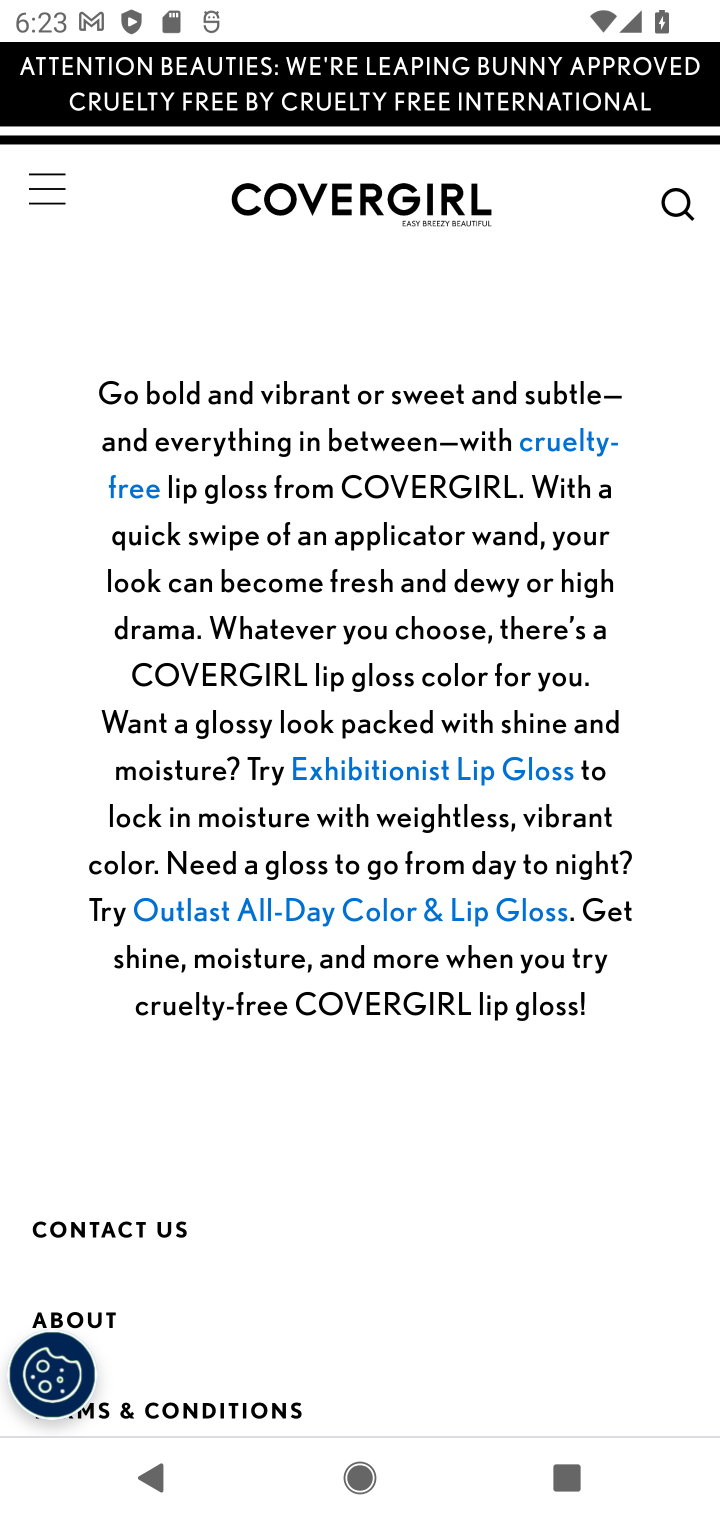
Step 31: drag from (458, 971) to (436, 505)
Your task to perform on an android device: Search for a new lipgloss Image 32: 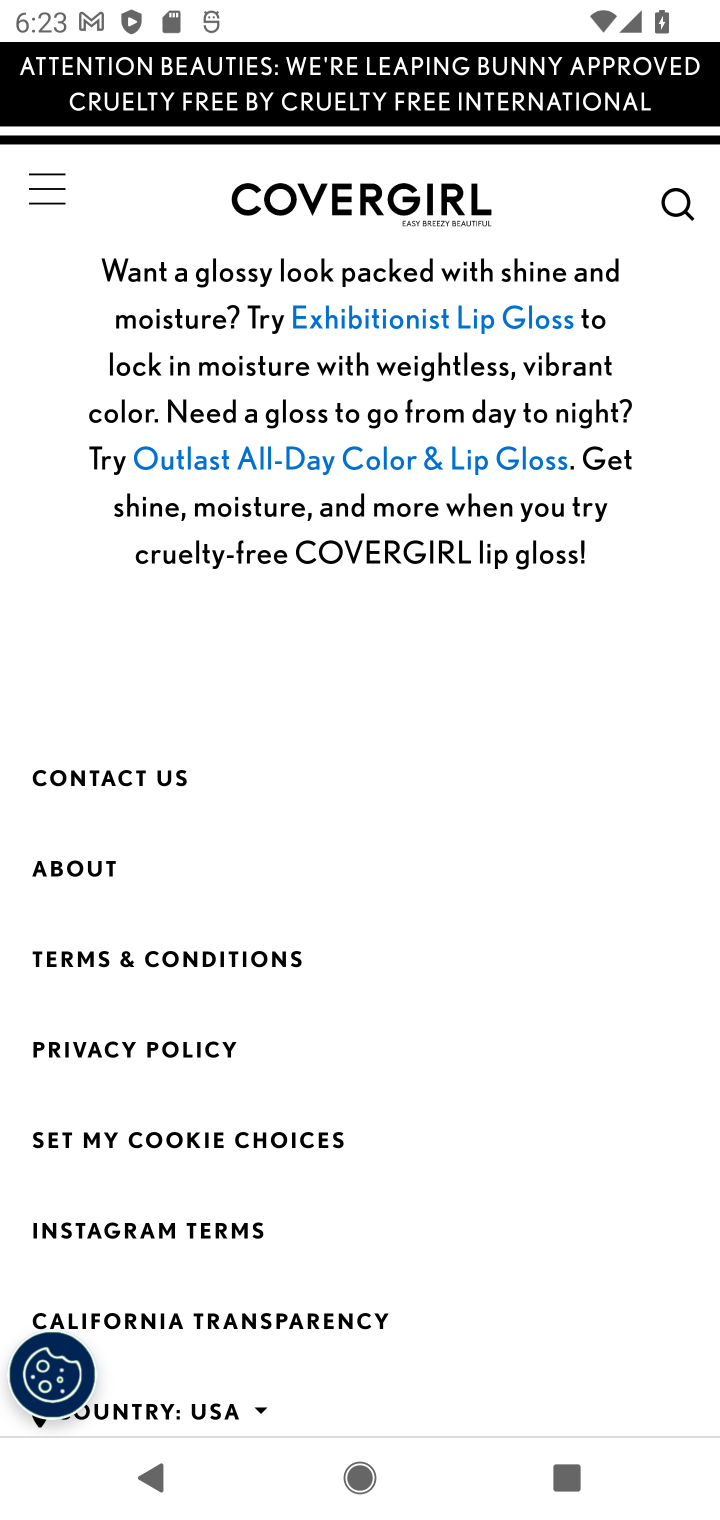
Step 32: drag from (346, 475) to (432, 554)
Your task to perform on an android device: Search for a new lipgloss Image 33: 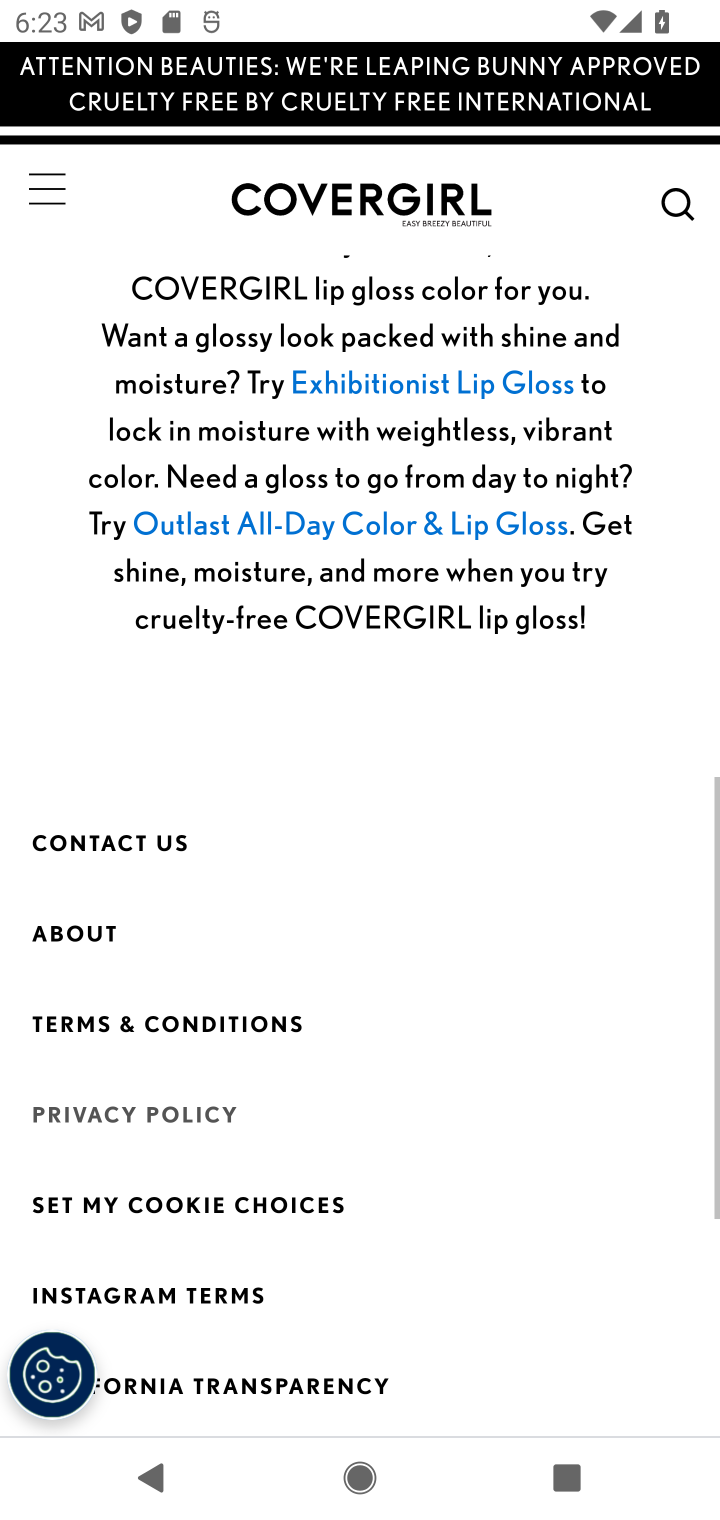
Step 33: drag from (524, 663) to (512, 437)
Your task to perform on an android device: Search for a new lipgloss Image 34: 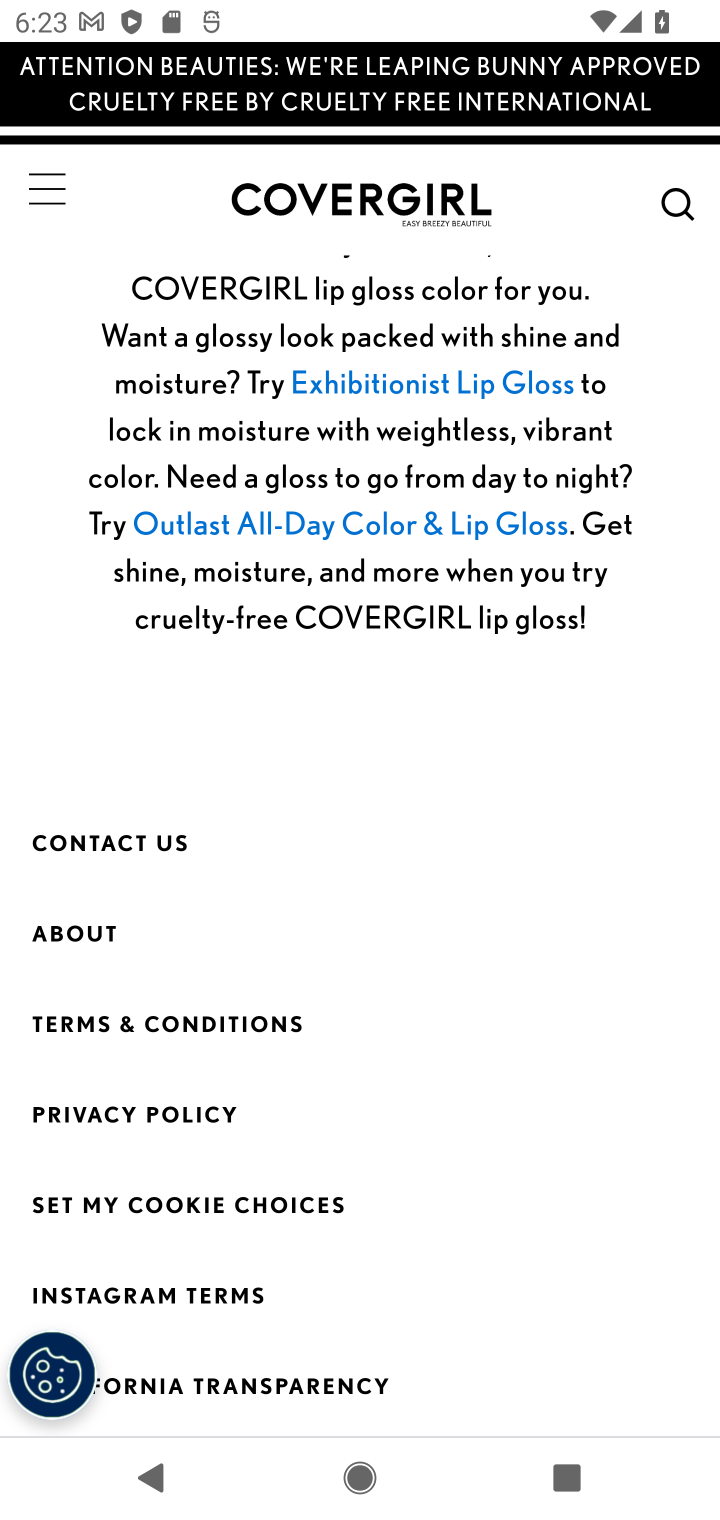
Step 34: drag from (572, 593) to (550, 416)
Your task to perform on an android device: Search for a new lipgloss Image 35: 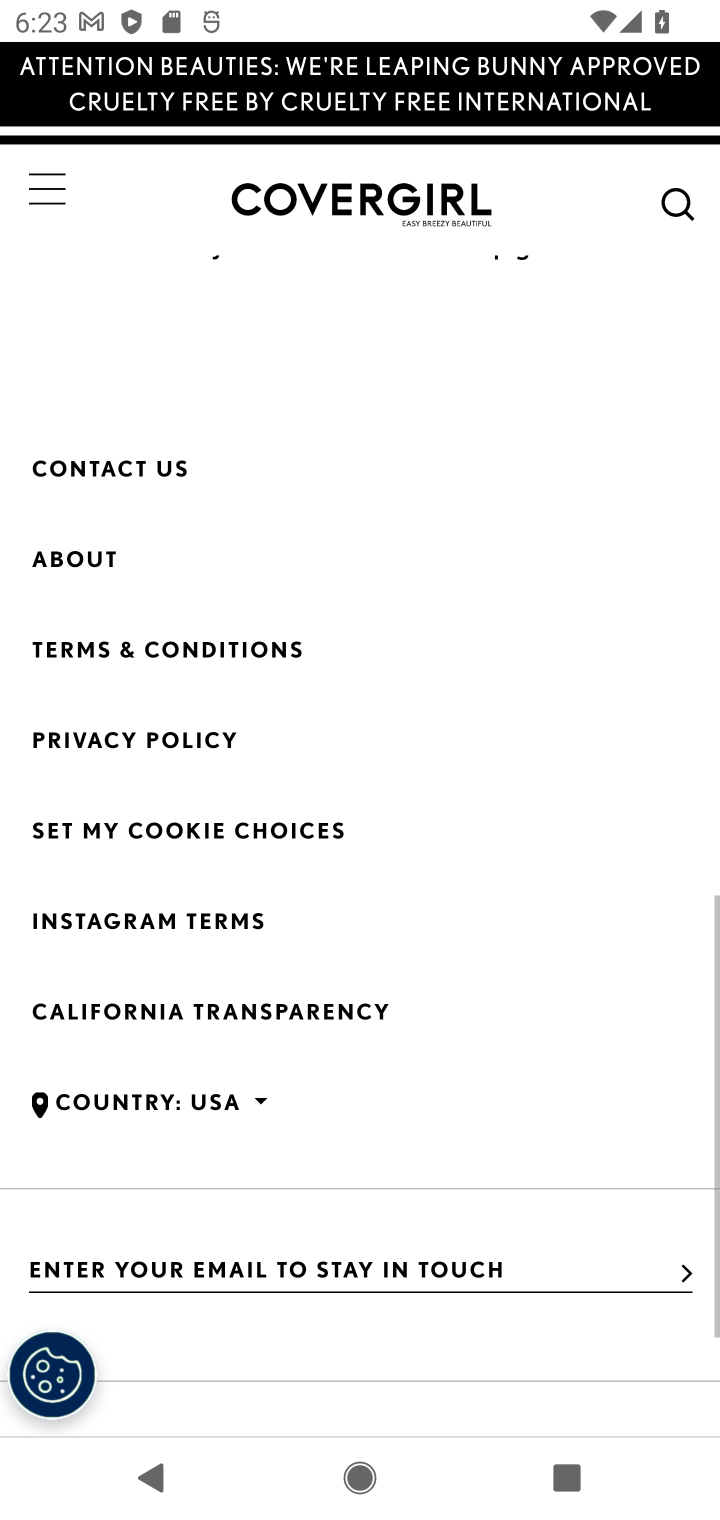
Step 35: click (689, 477)
Your task to perform on an android device: Search for a new lipgloss Image 36: 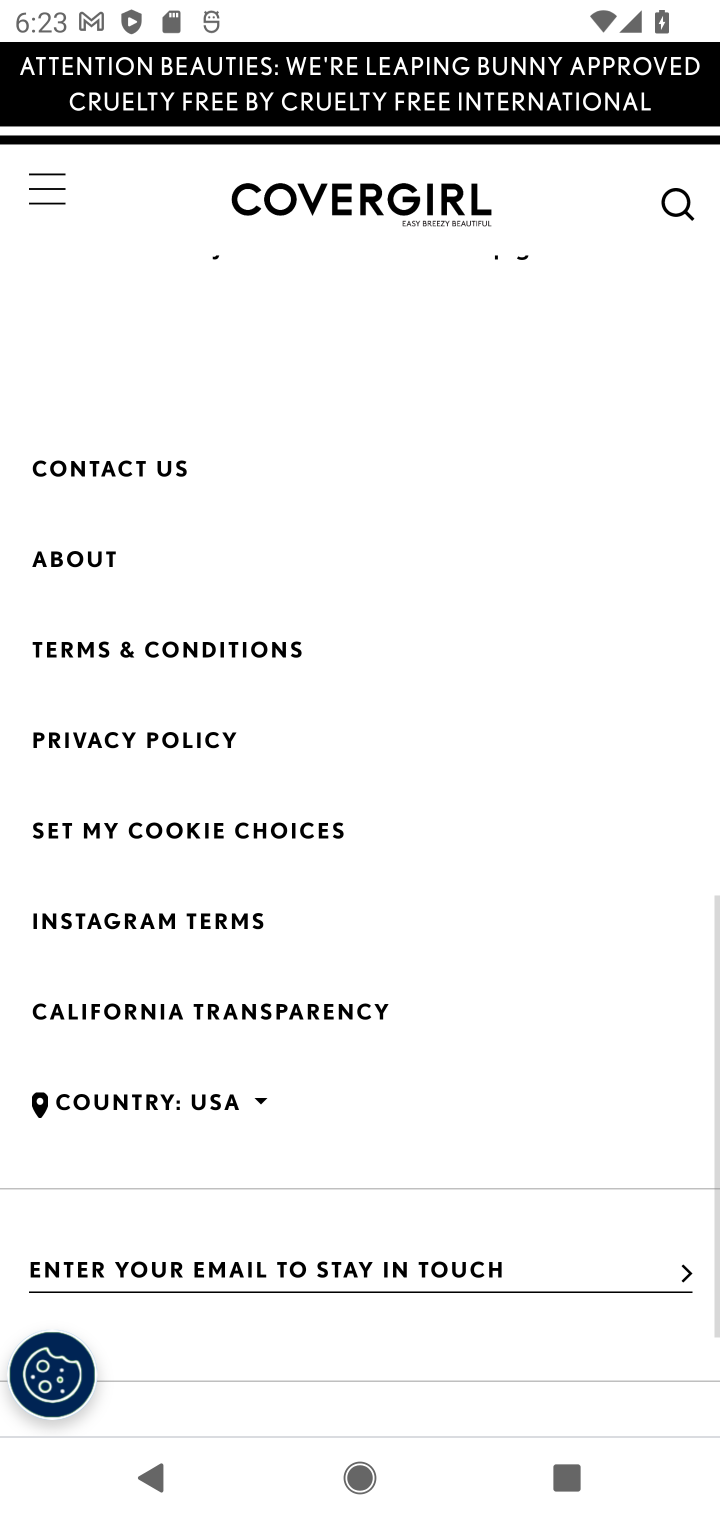
Step 36: drag from (713, 983) to (670, 736)
Your task to perform on an android device: Search for a new lipgloss Image 37: 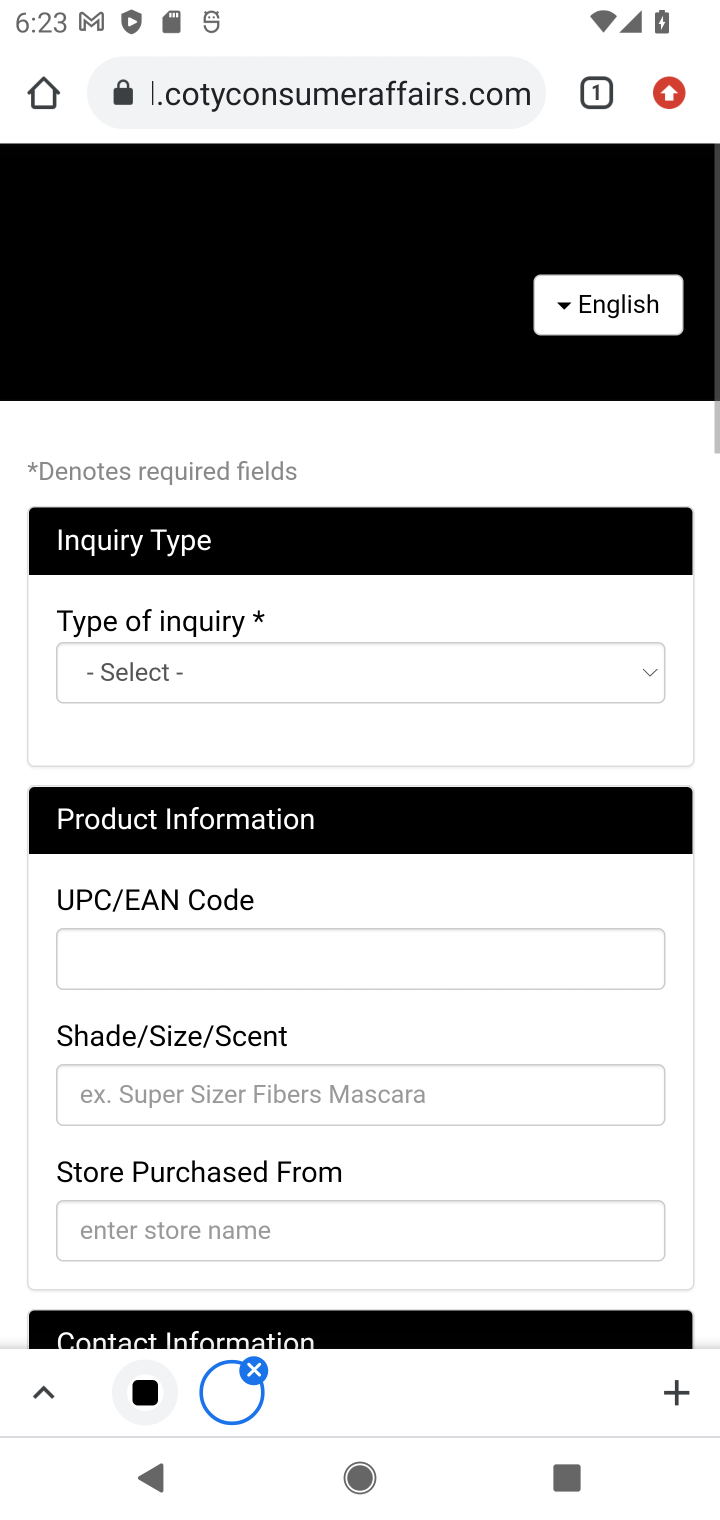
Step 37: press back button
Your task to perform on an android device: Search for a new lipgloss Image 38: 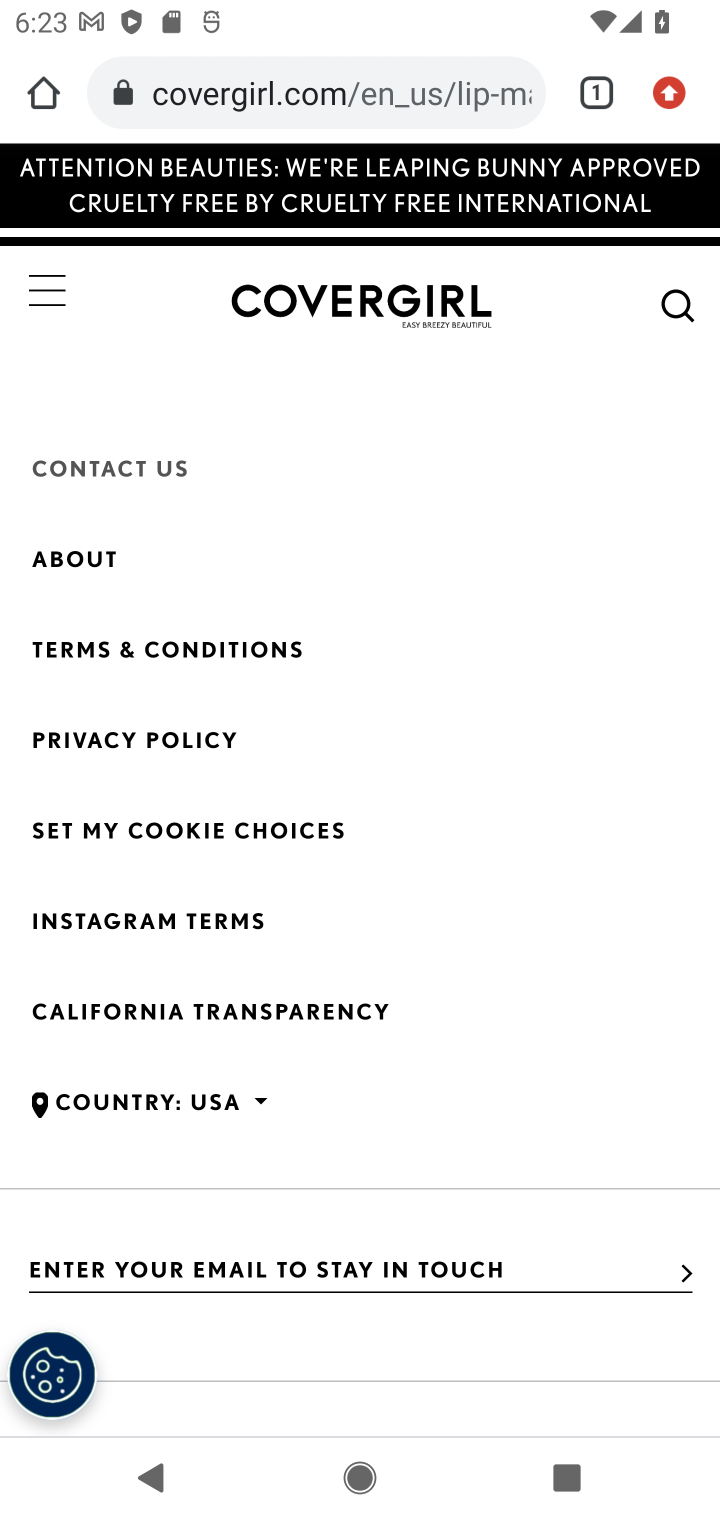
Step 38: press back button
Your task to perform on an android device: Search for a new lipgloss Image 39: 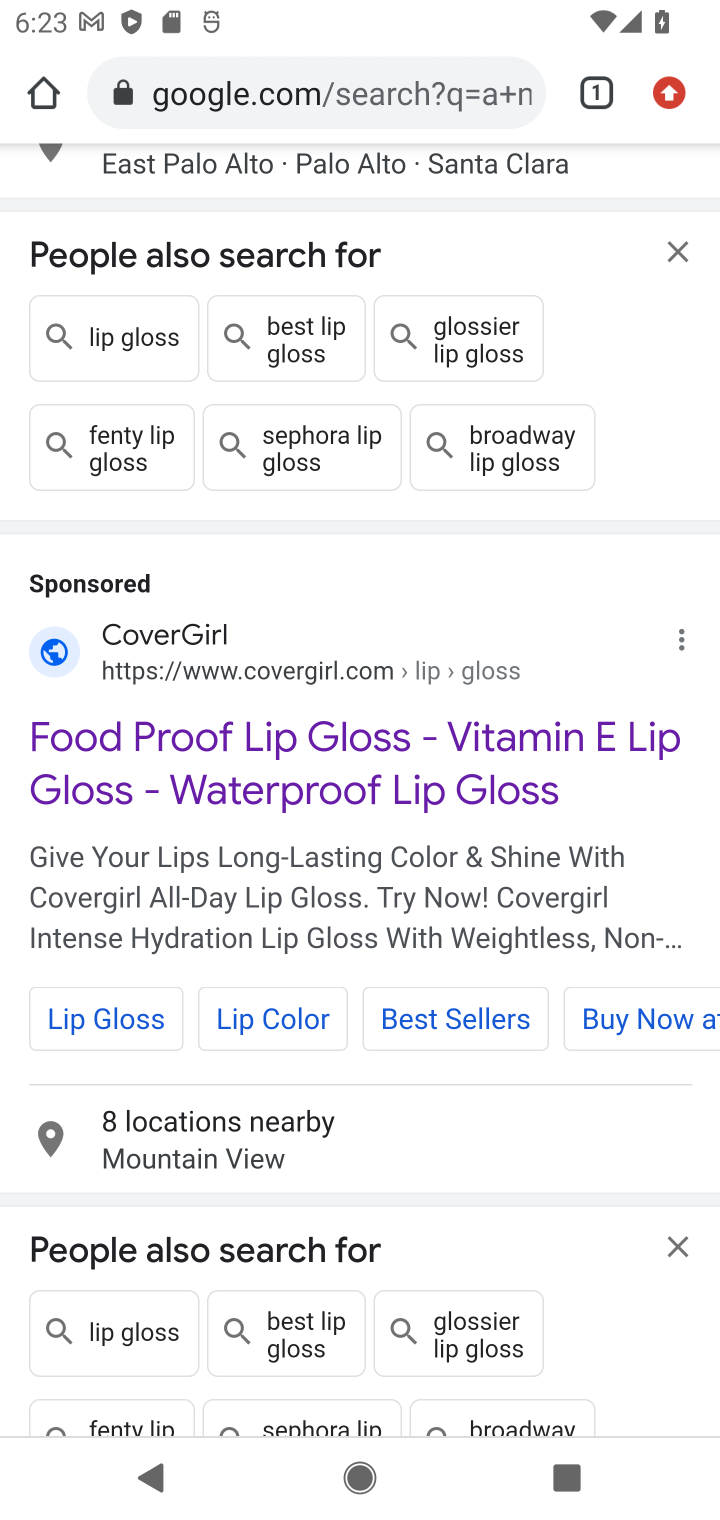
Step 39: drag from (432, 1061) to (320, 155)
Your task to perform on an android device: Search for a new lipgloss Image 40: 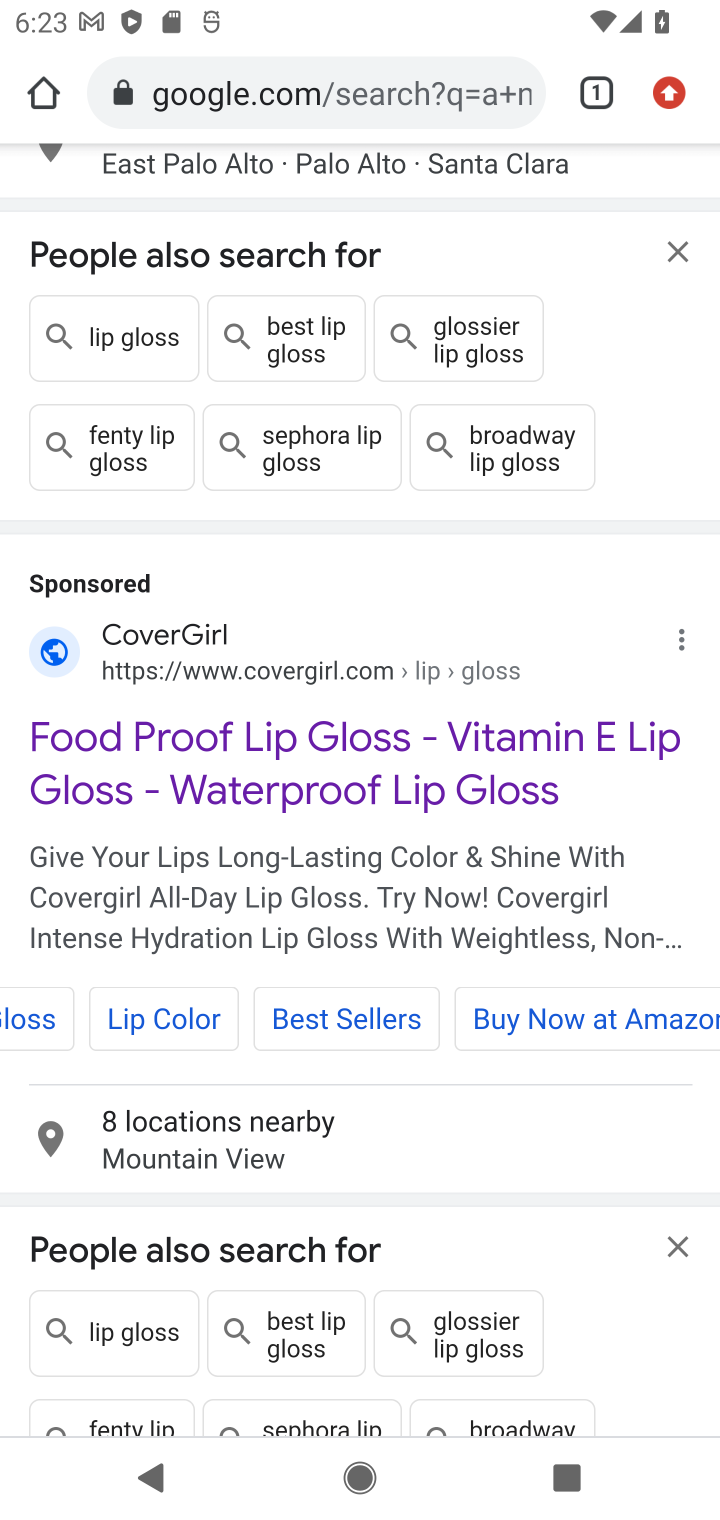
Step 40: drag from (454, 1163) to (389, 154)
Your task to perform on an android device: Search for a new lipgloss Image 41: 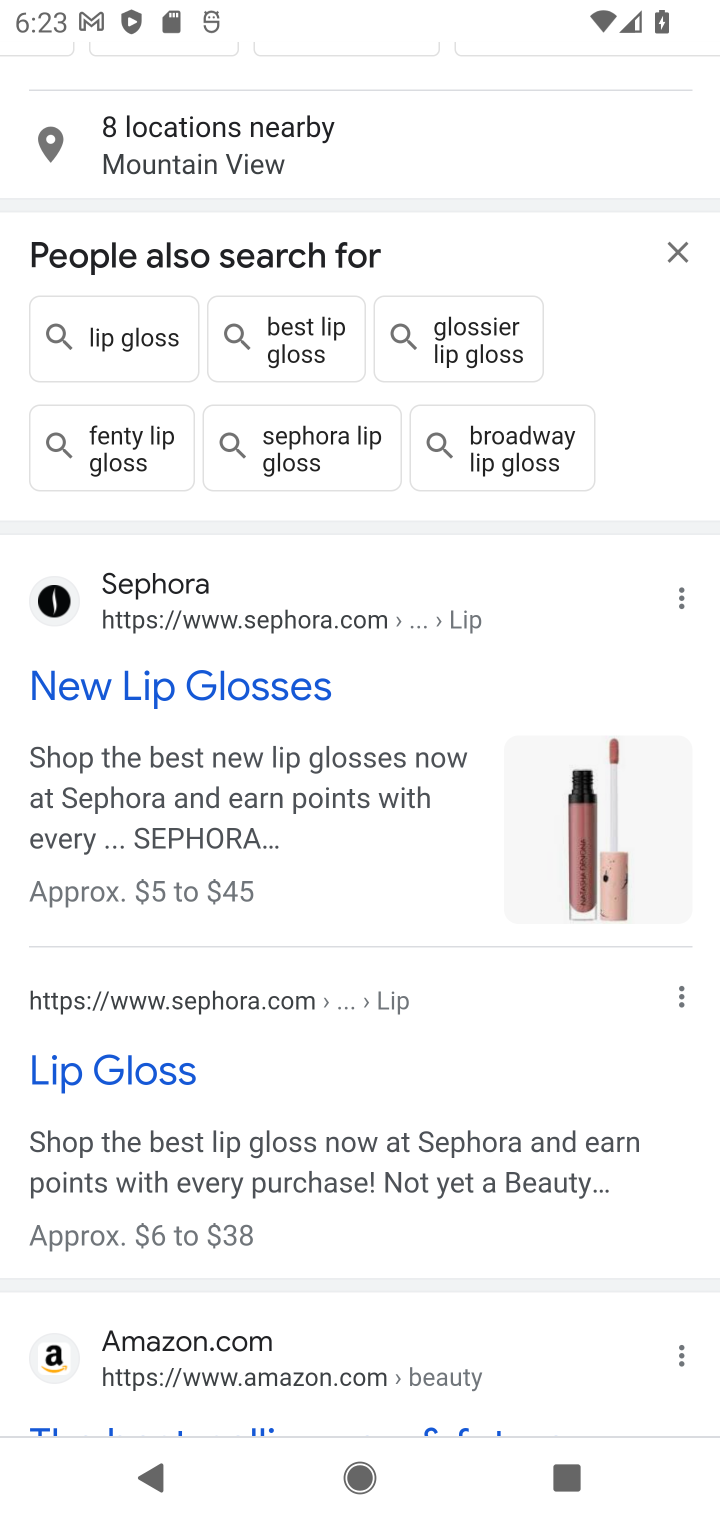
Step 41: click (124, 713)
Your task to perform on an android device: Search for a new lipgloss Image 42: 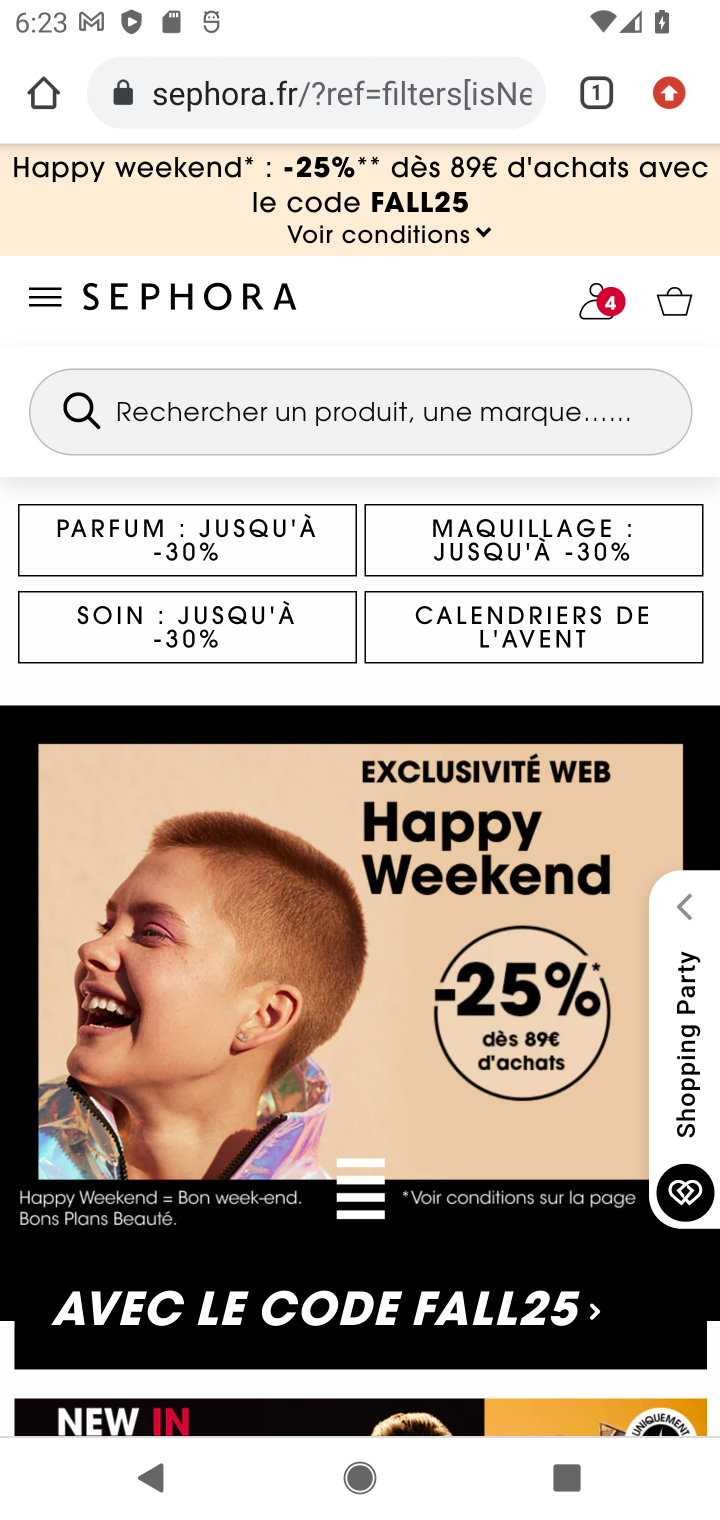
Step 42: task complete